Your task to perform on an android device: How much does a 2 bedroom apartment rent for in Washington DC? Image 0: 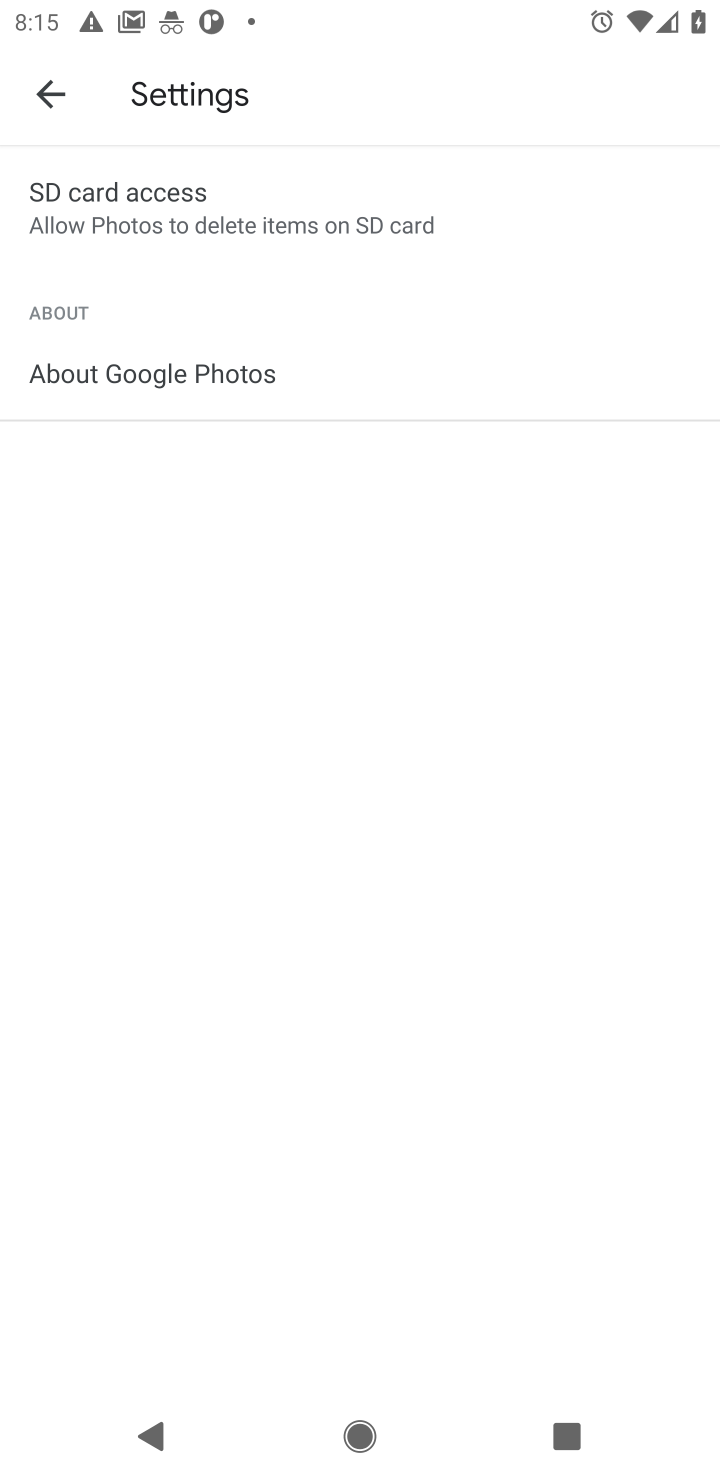
Step 0: press home button
Your task to perform on an android device: How much does a 2 bedroom apartment rent for in Washington DC? Image 1: 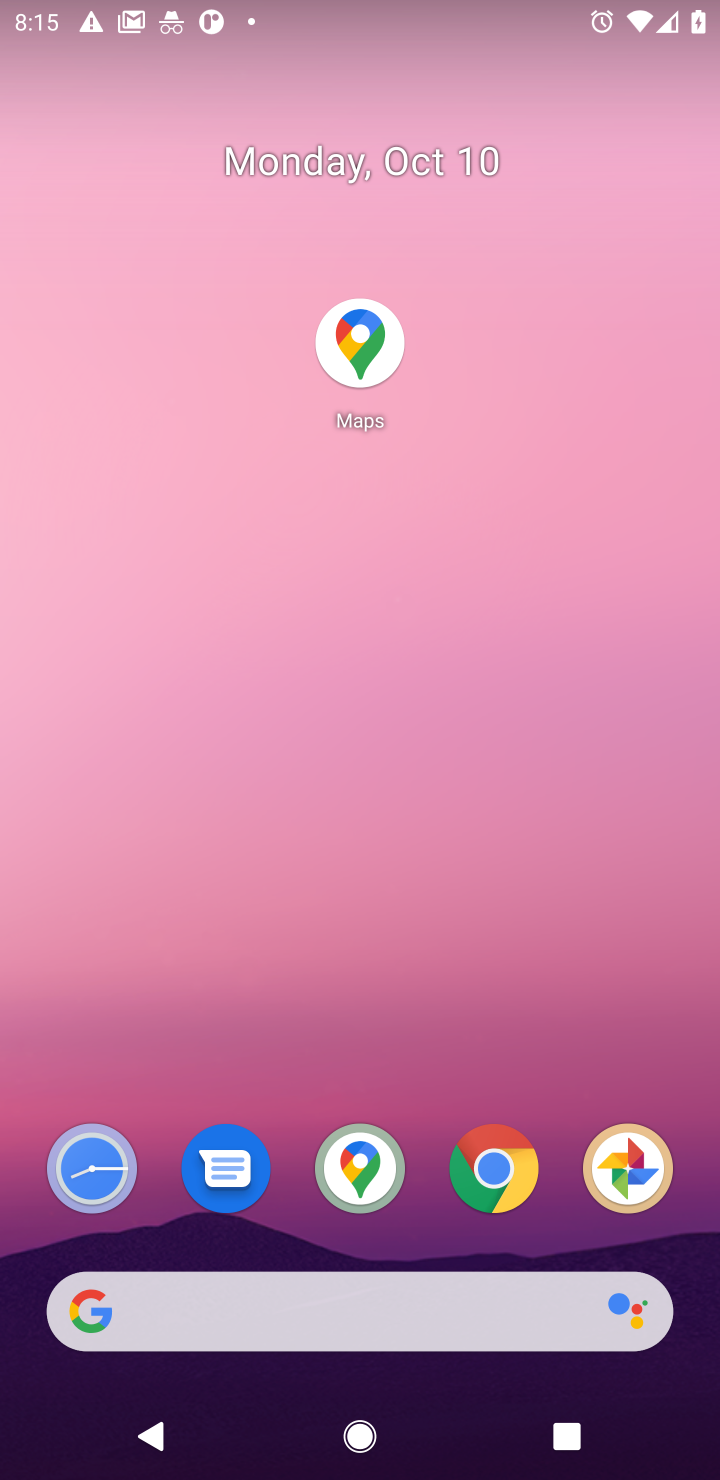
Step 1: click (502, 1173)
Your task to perform on an android device: How much does a 2 bedroom apartment rent for in Washington DC? Image 2: 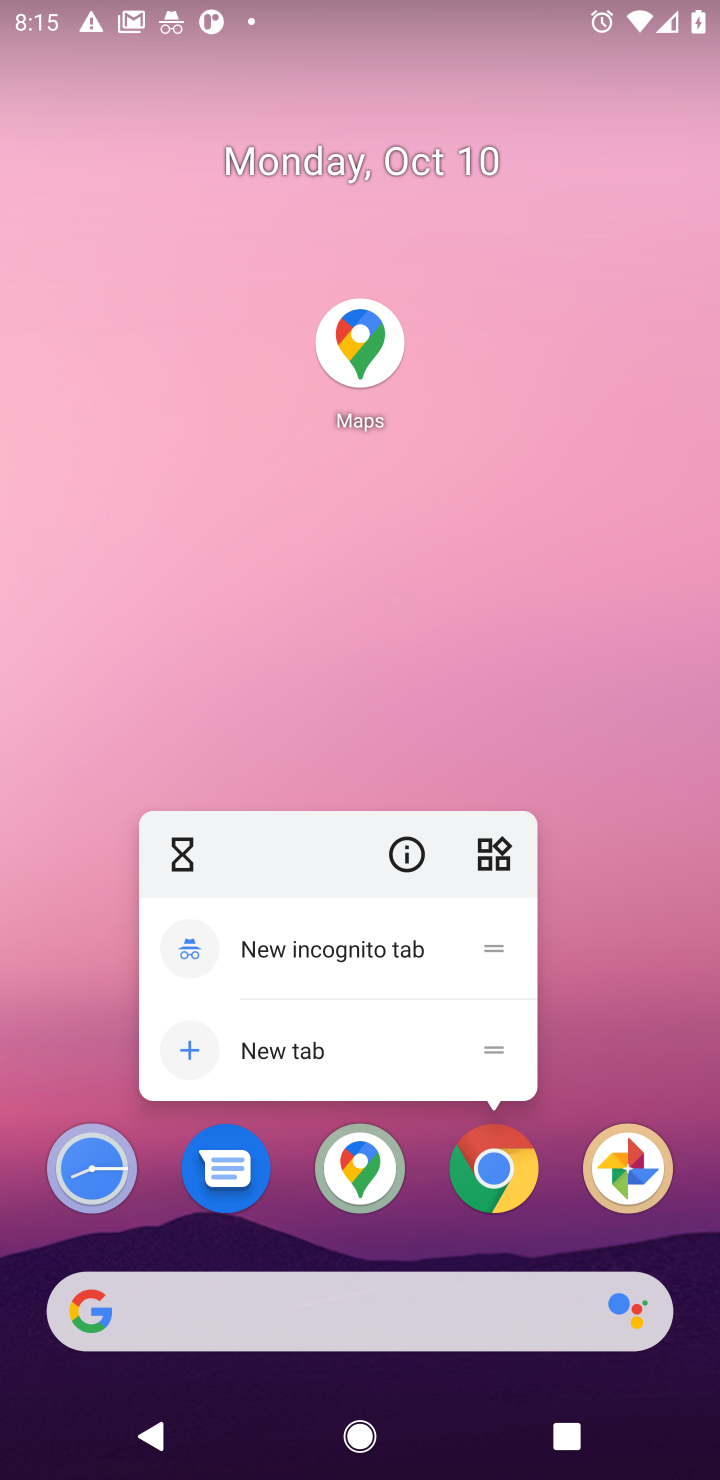
Step 2: click (502, 1173)
Your task to perform on an android device: How much does a 2 bedroom apartment rent for in Washington DC? Image 3: 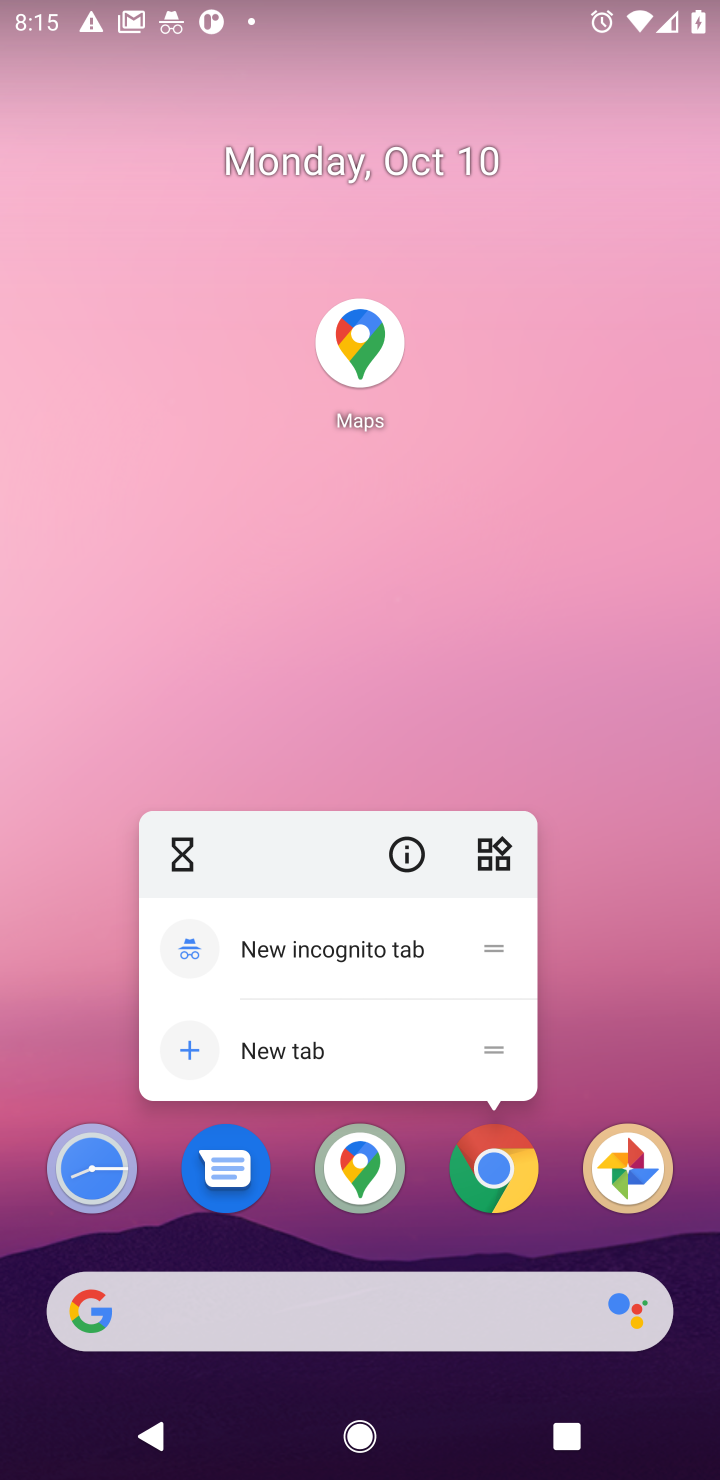
Step 3: click (502, 1173)
Your task to perform on an android device: How much does a 2 bedroom apartment rent for in Washington DC? Image 4: 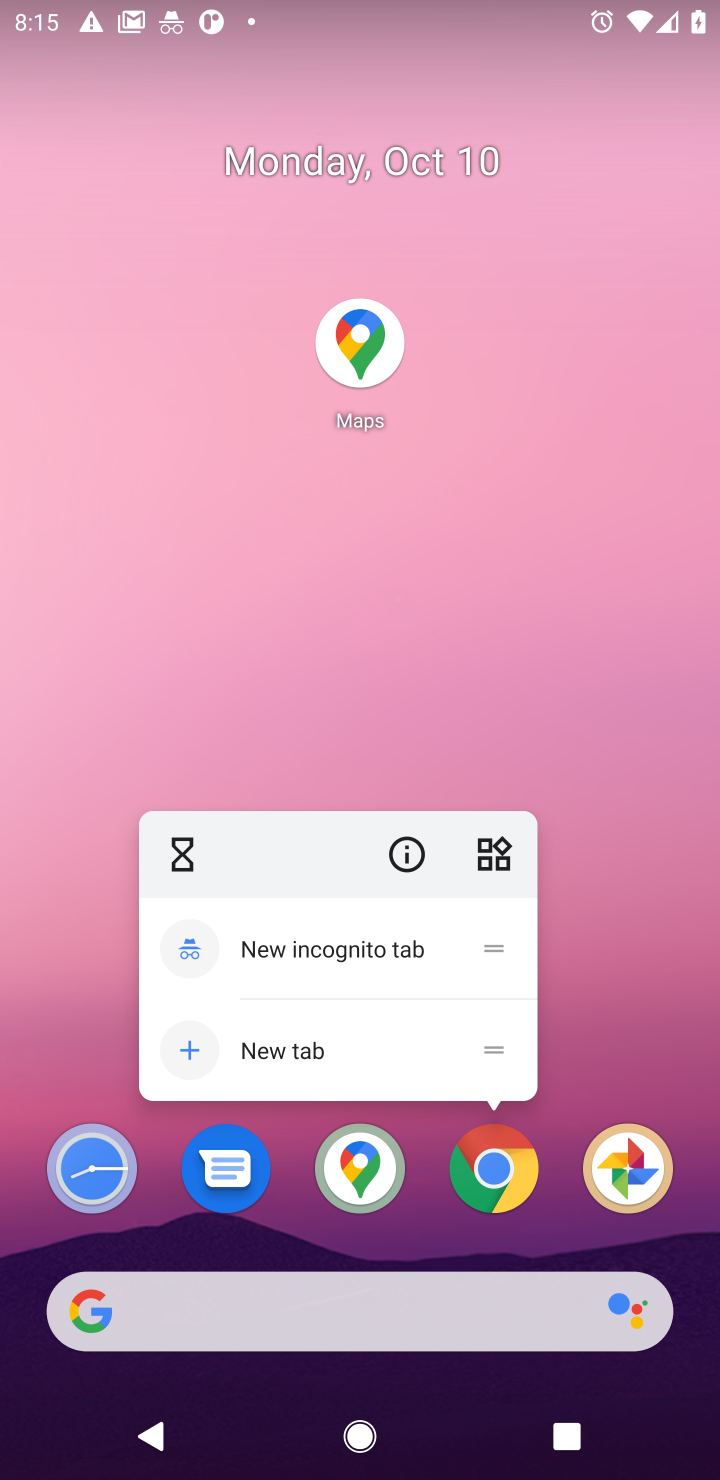
Step 4: click (502, 1173)
Your task to perform on an android device: How much does a 2 bedroom apartment rent for in Washington DC? Image 5: 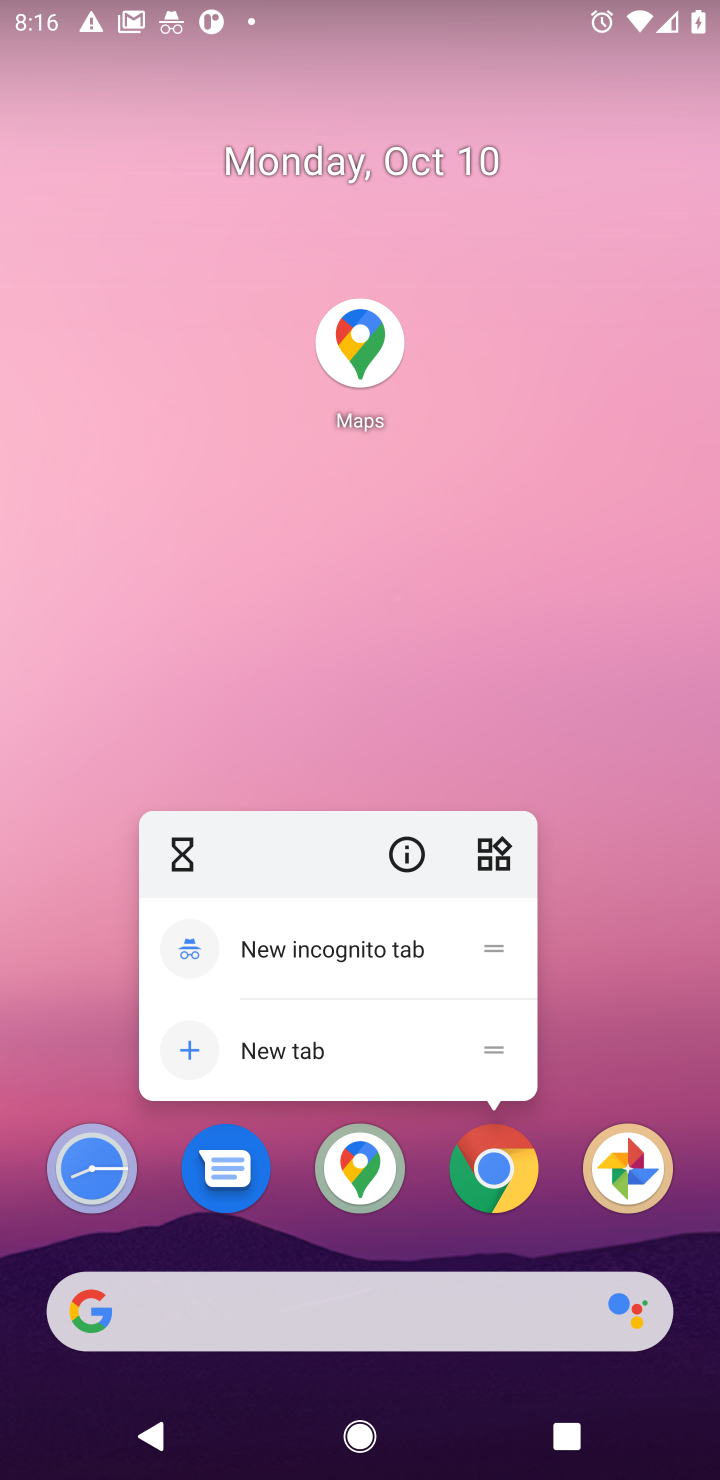
Step 5: click (502, 1173)
Your task to perform on an android device: How much does a 2 bedroom apartment rent for in Washington DC? Image 6: 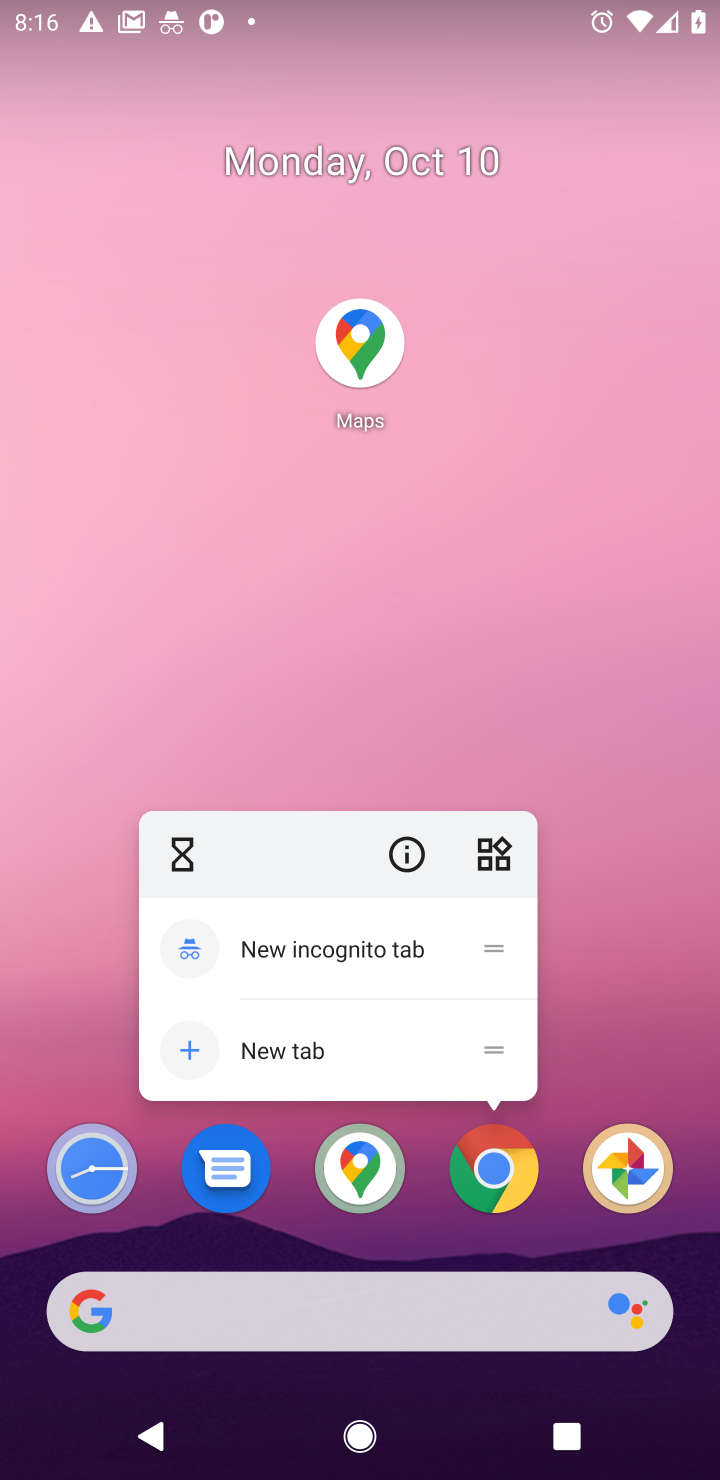
Step 6: click (485, 1188)
Your task to perform on an android device: How much does a 2 bedroom apartment rent for in Washington DC? Image 7: 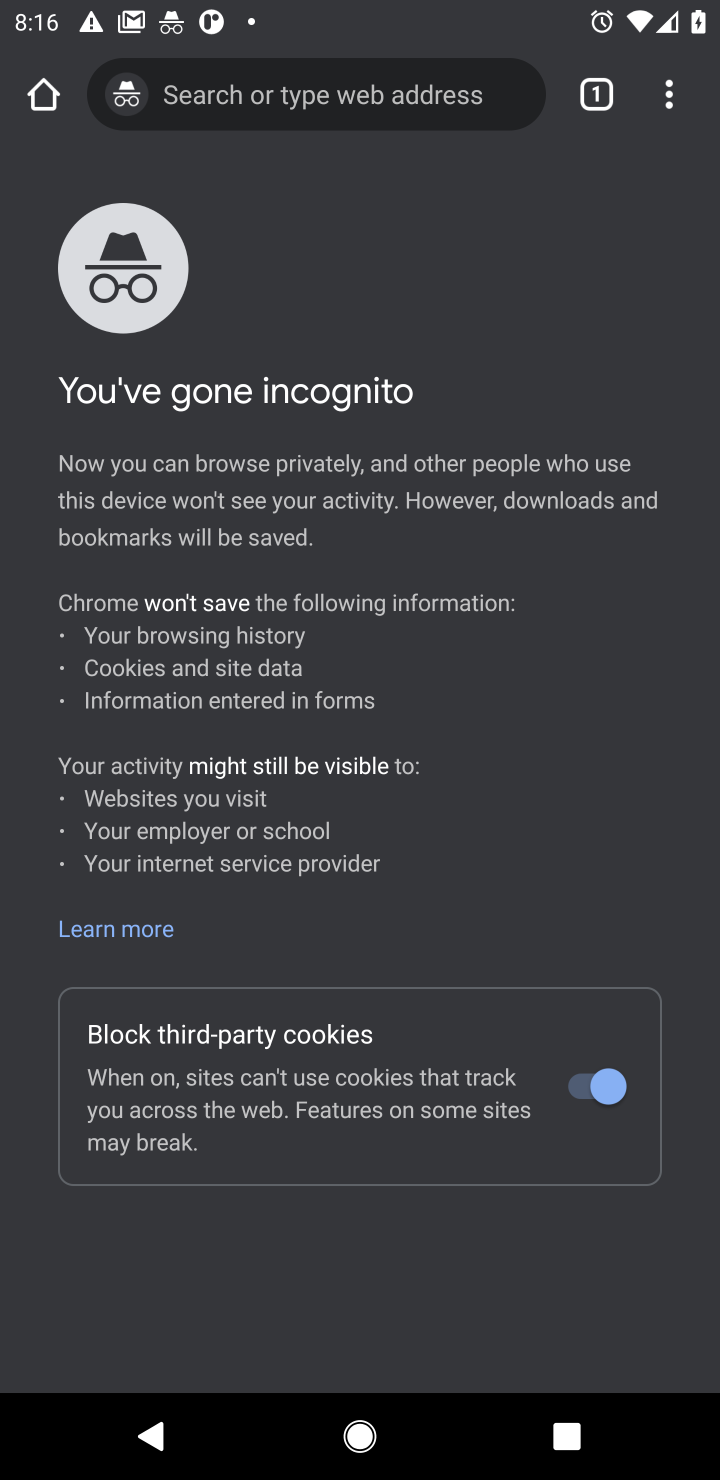
Step 7: click (237, 111)
Your task to perform on an android device: How much does a 2 bedroom apartment rent for in Washington DC? Image 8: 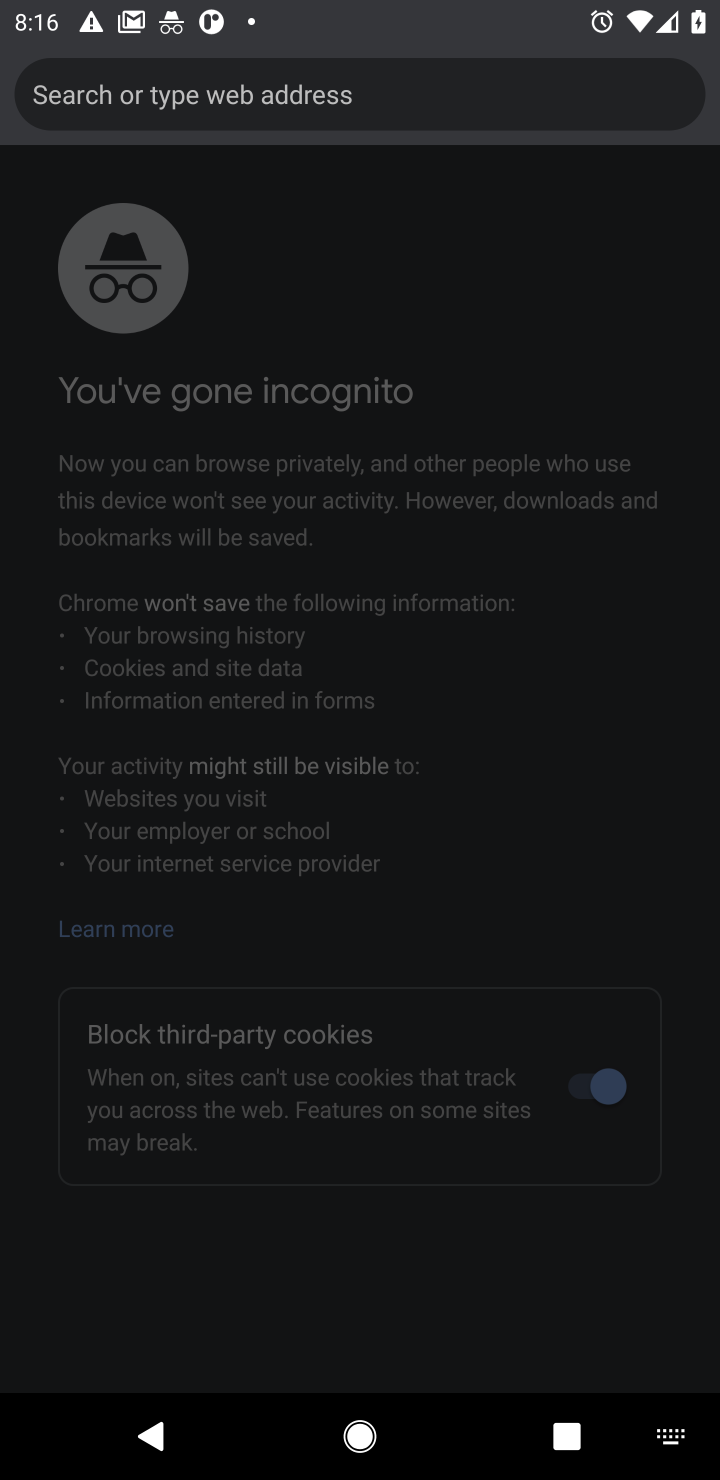
Step 8: type "rent for 2 bedroom apartment in washington dc"
Your task to perform on an android device: How much does a 2 bedroom apartment rent for in Washington DC? Image 9: 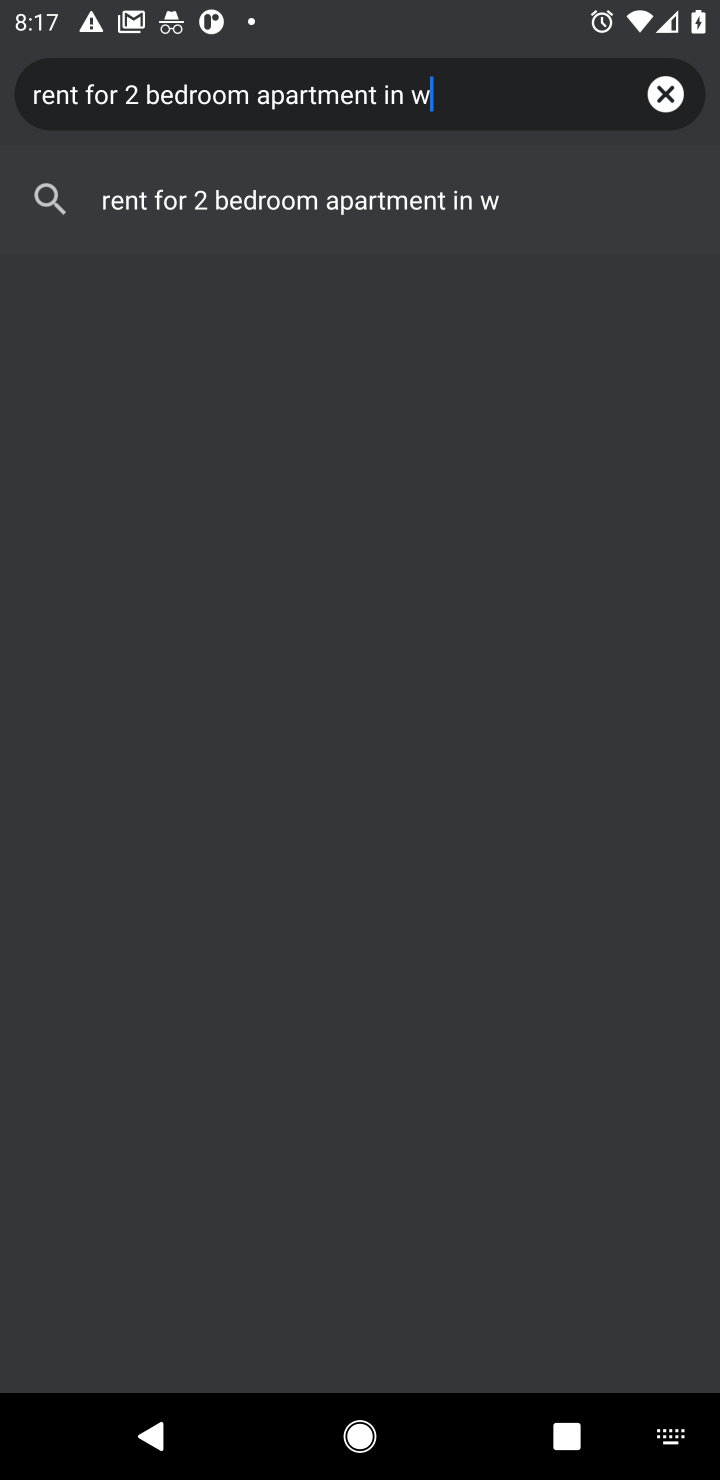
Step 9: type "ashington dc"
Your task to perform on an android device: How much does a 2 bedroom apartment rent for in Washington DC? Image 10: 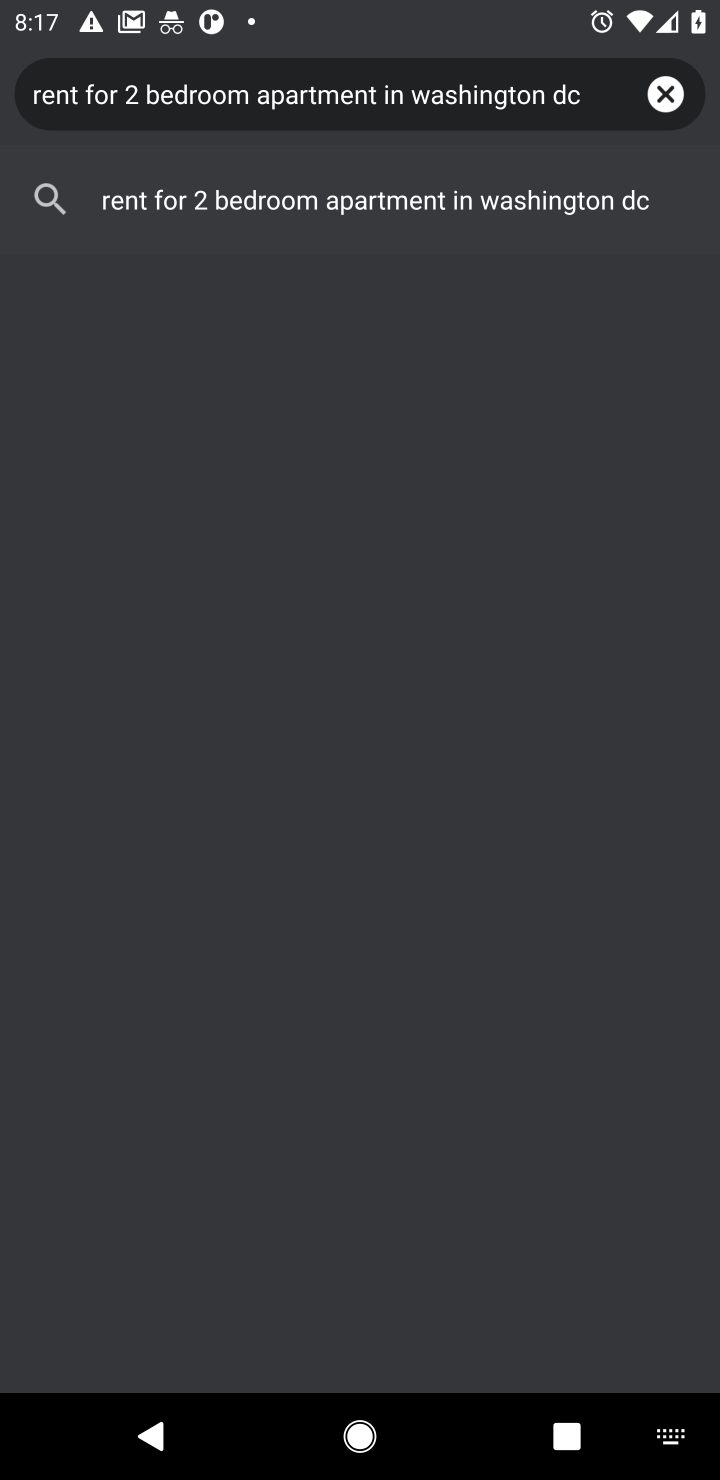
Step 10: click (430, 205)
Your task to perform on an android device: How much does a 2 bedroom apartment rent for in Washington DC? Image 11: 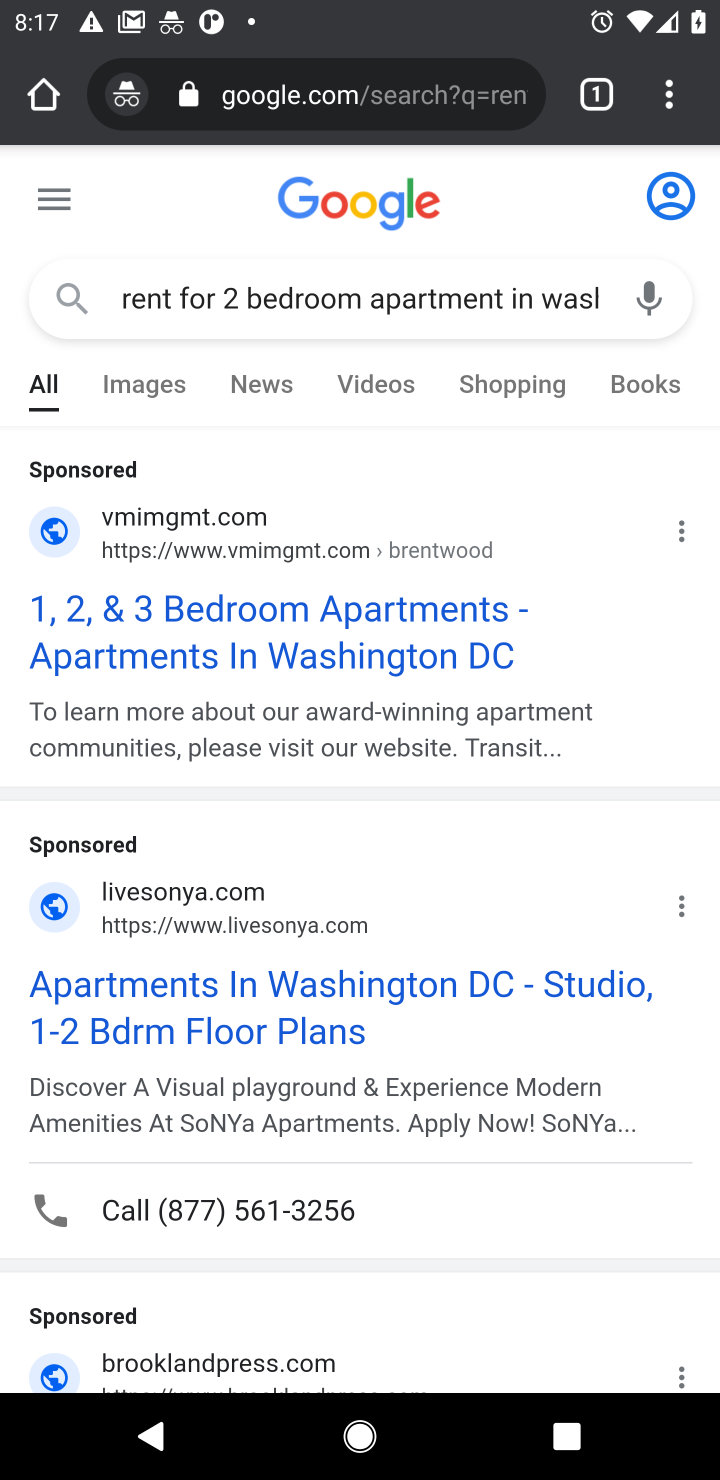
Step 11: click (159, 636)
Your task to perform on an android device: How much does a 2 bedroom apartment rent for in Washington DC? Image 12: 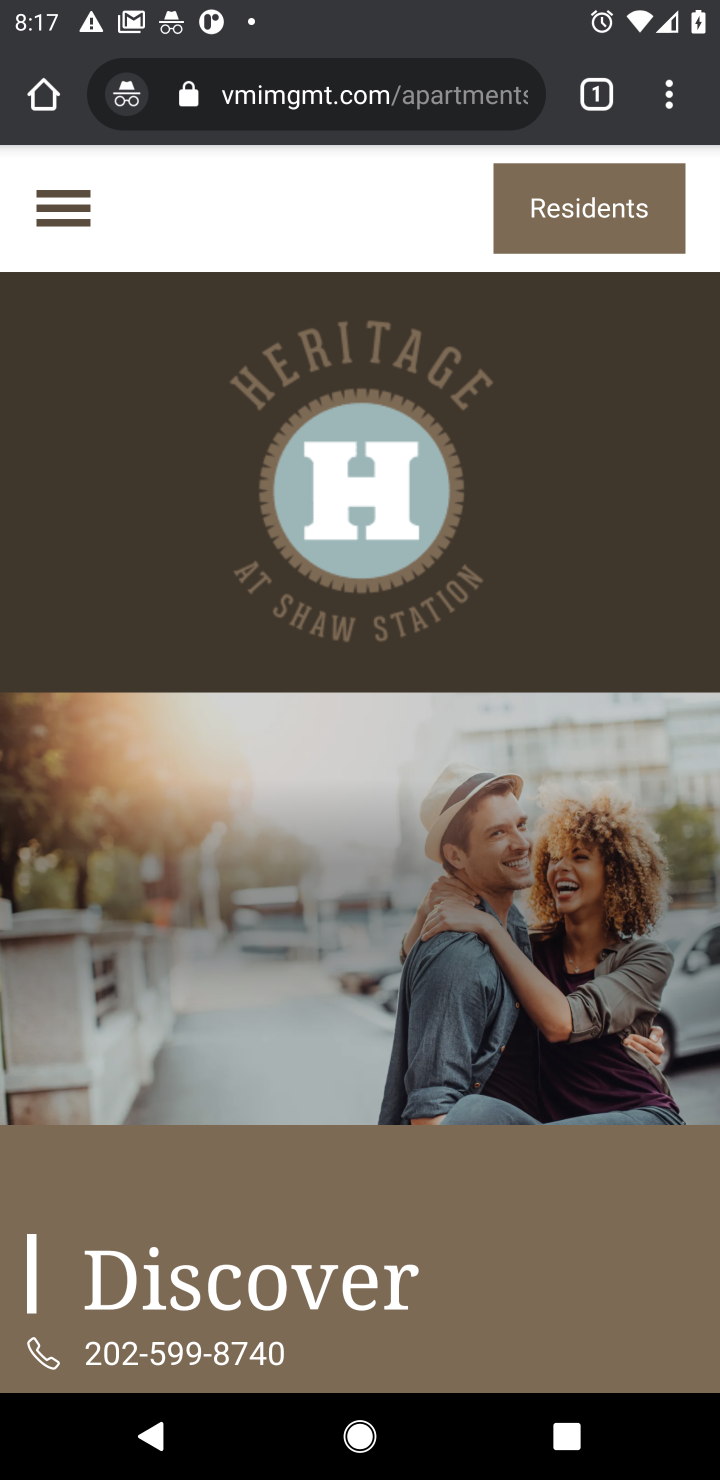
Step 12: drag from (574, 1165) to (573, 451)
Your task to perform on an android device: How much does a 2 bedroom apartment rent for in Washington DC? Image 13: 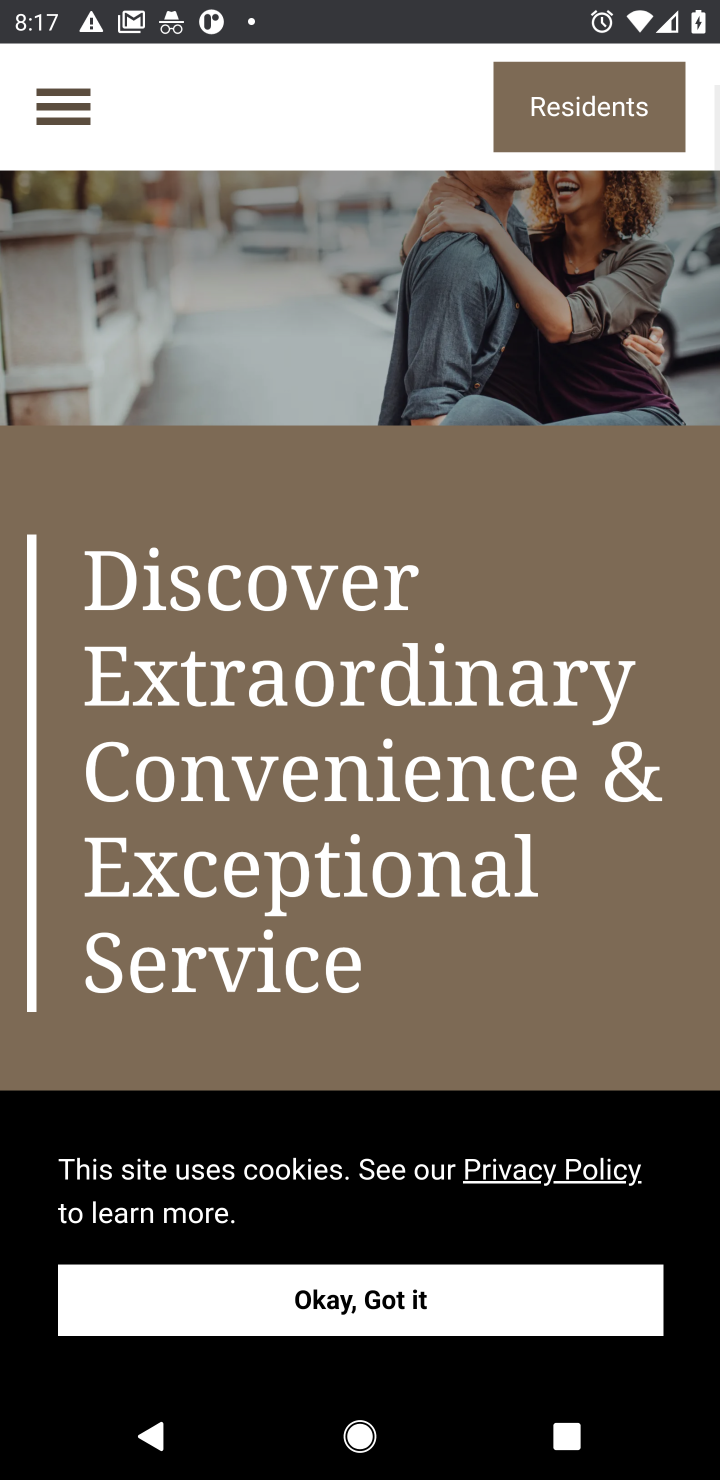
Step 13: drag from (502, 553) to (452, 194)
Your task to perform on an android device: How much does a 2 bedroom apartment rent for in Washington DC? Image 14: 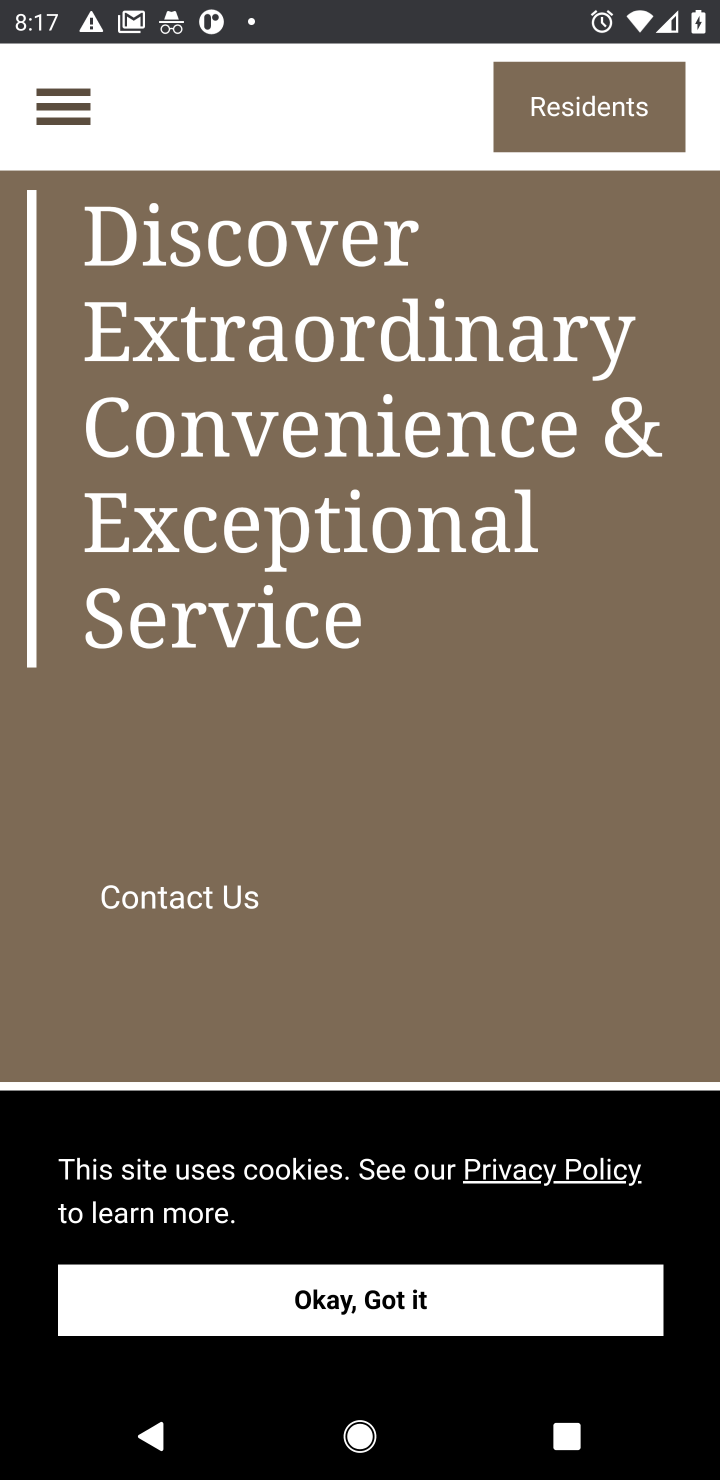
Step 14: drag from (507, 911) to (484, 150)
Your task to perform on an android device: How much does a 2 bedroom apartment rent for in Washington DC? Image 15: 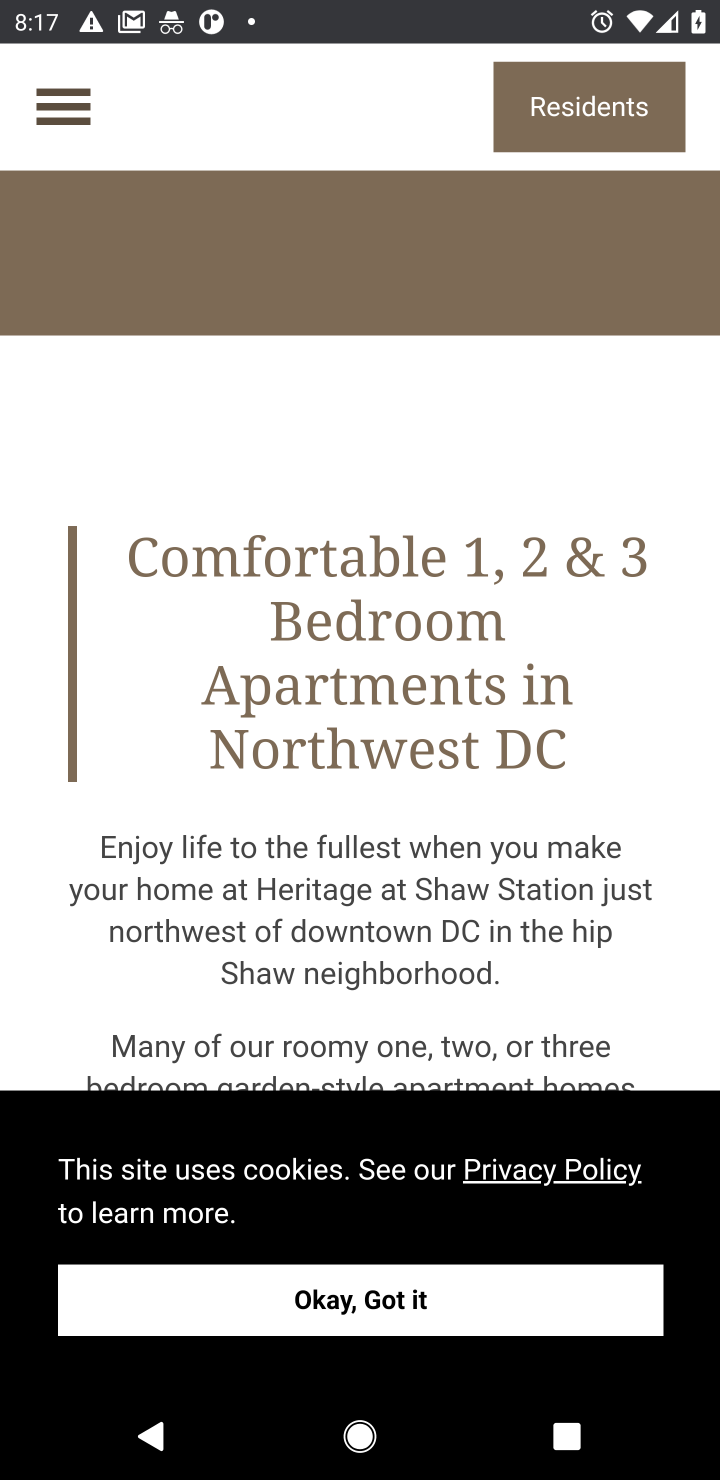
Step 15: drag from (425, 890) to (397, 279)
Your task to perform on an android device: How much does a 2 bedroom apartment rent for in Washington DC? Image 16: 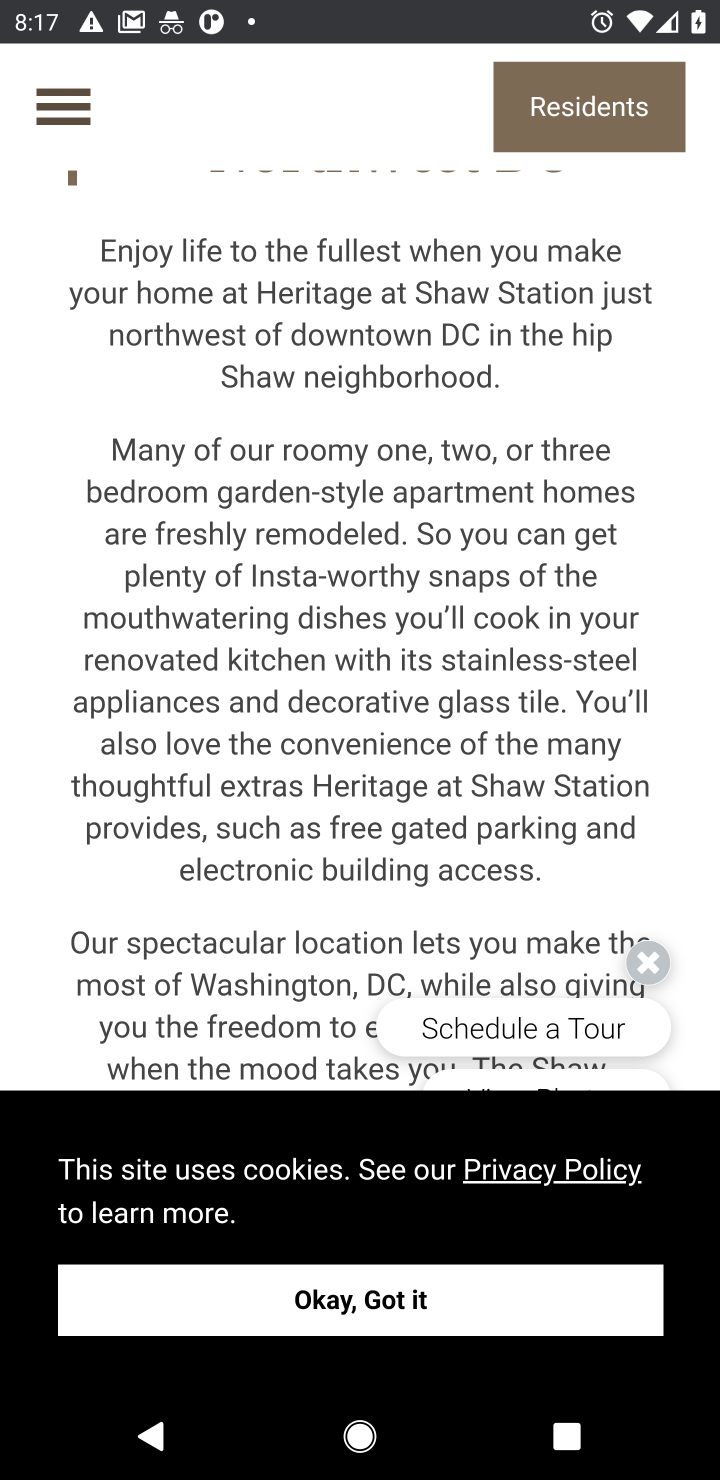
Step 16: drag from (372, 836) to (359, 197)
Your task to perform on an android device: How much does a 2 bedroom apartment rent for in Washington DC? Image 17: 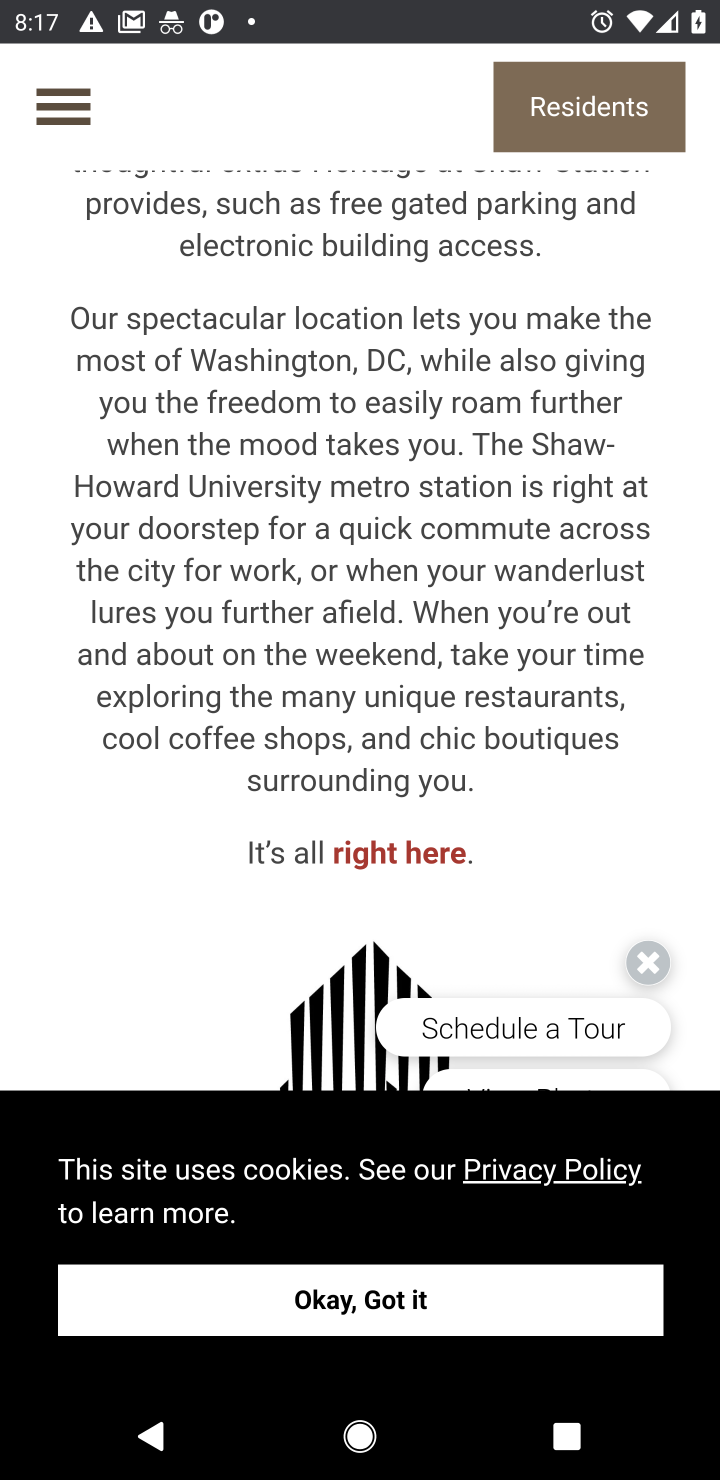
Step 17: drag from (264, 743) to (231, 287)
Your task to perform on an android device: How much does a 2 bedroom apartment rent for in Washington DC? Image 18: 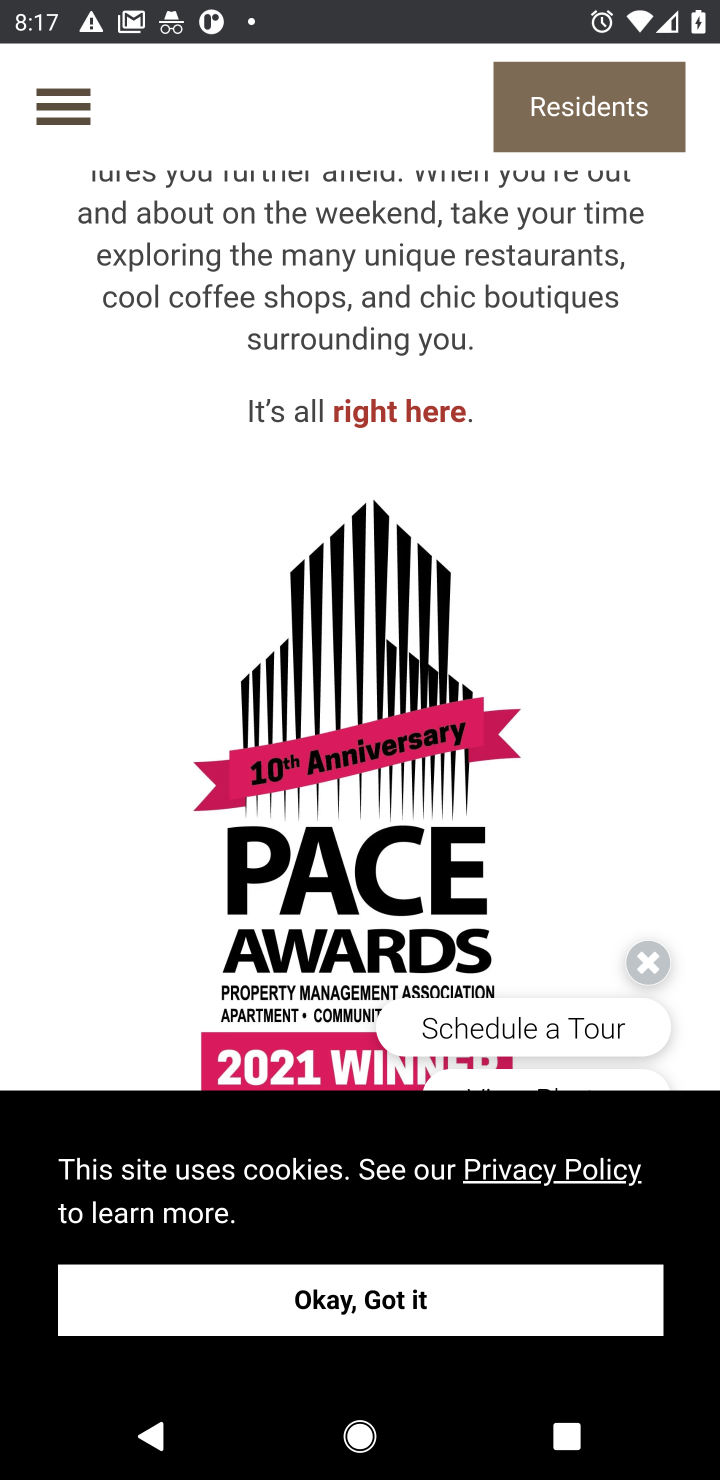
Step 18: press back button
Your task to perform on an android device: How much does a 2 bedroom apartment rent for in Washington DC? Image 19: 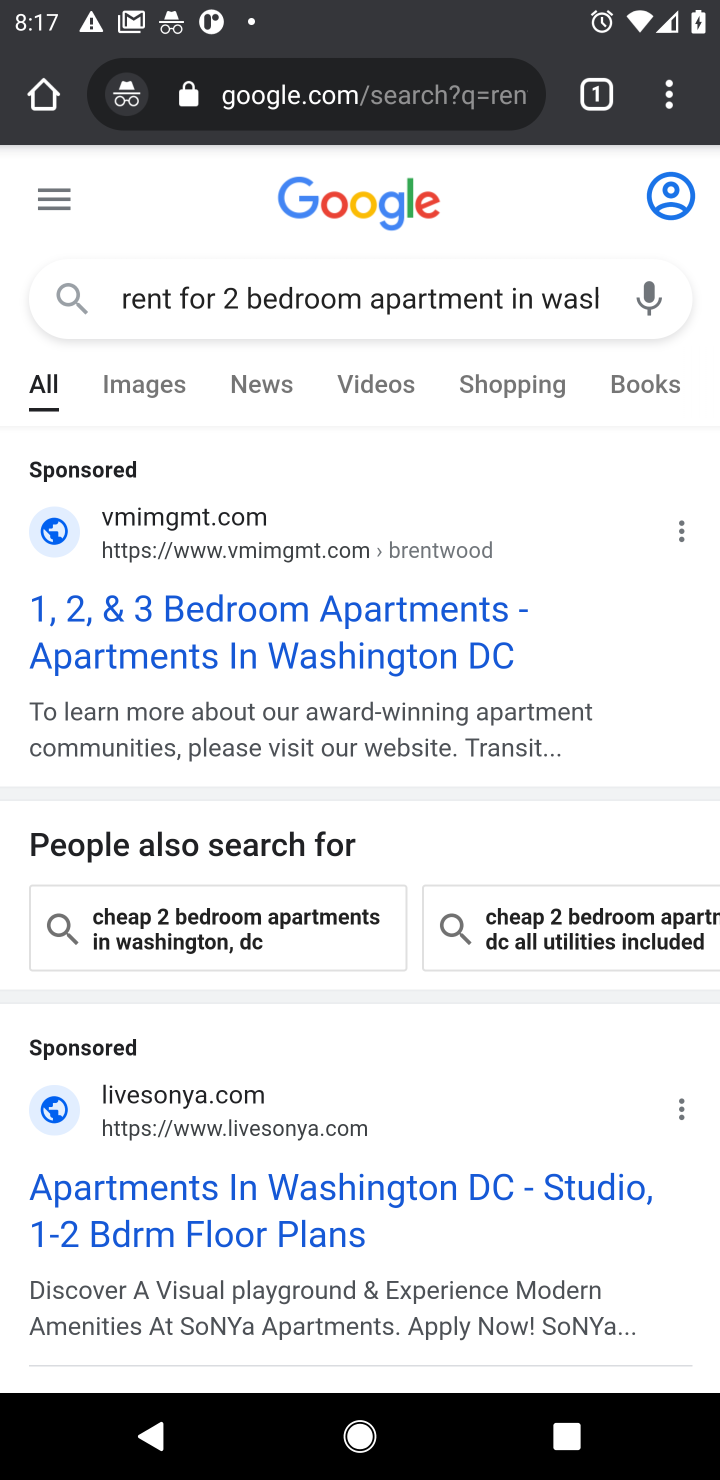
Step 19: drag from (320, 752) to (281, 426)
Your task to perform on an android device: How much does a 2 bedroom apartment rent for in Washington DC? Image 20: 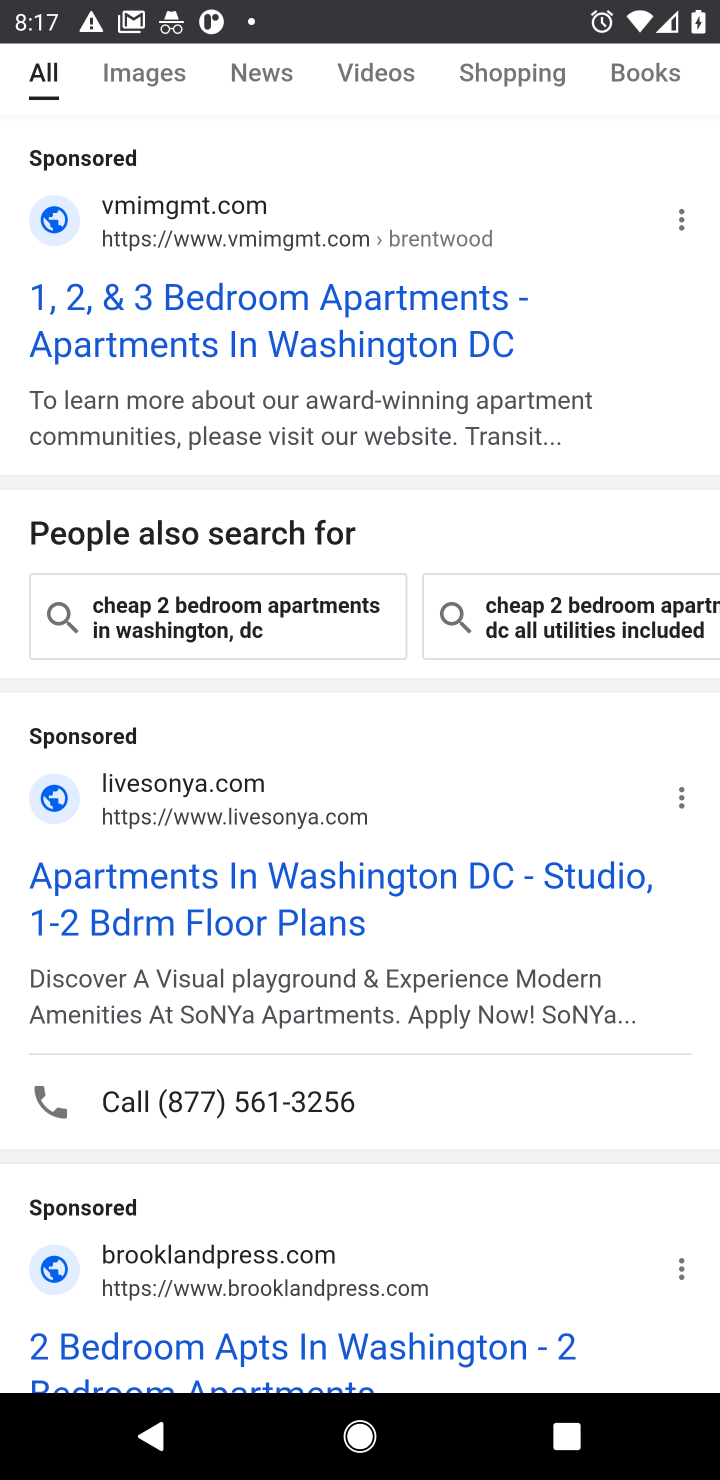
Step 20: drag from (279, 1139) to (285, 627)
Your task to perform on an android device: How much does a 2 bedroom apartment rent for in Washington DC? Image 21: 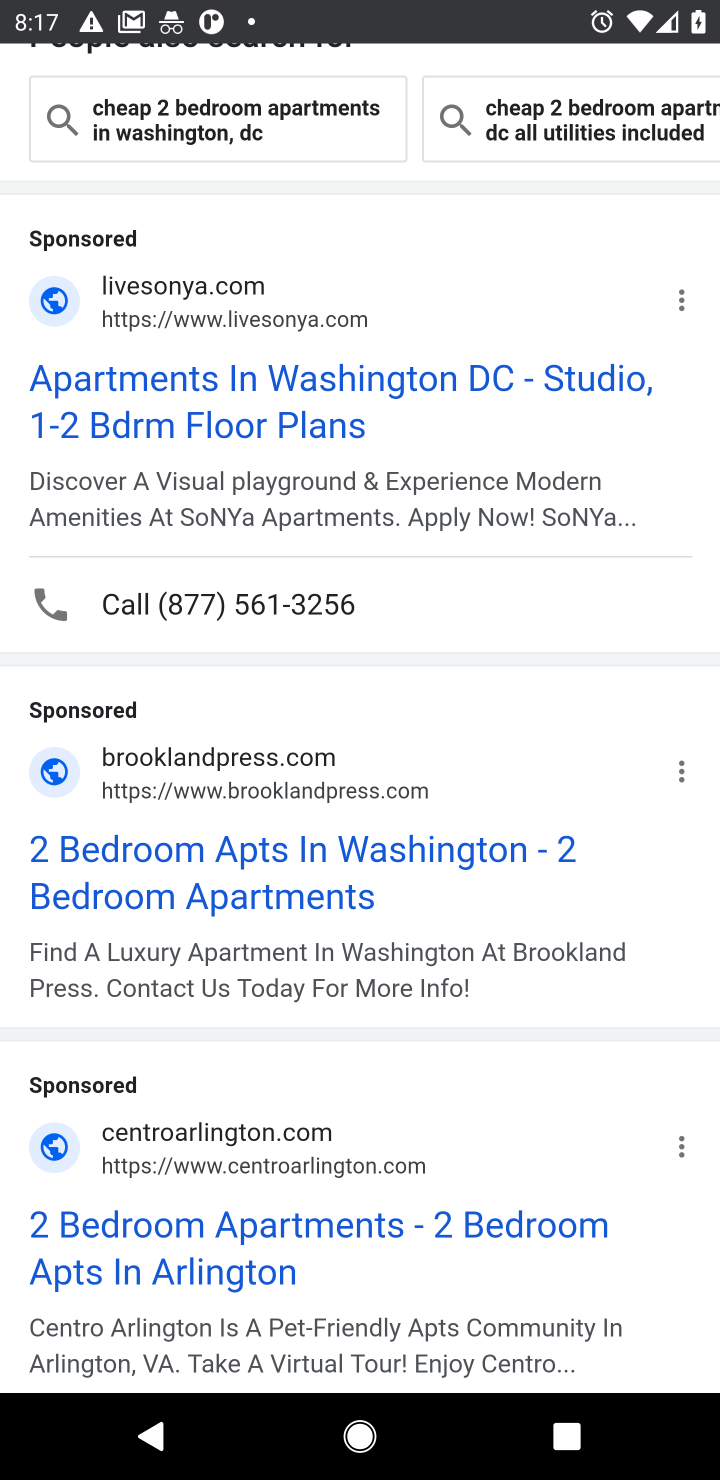
Step 21: click (175, 878)
Your task to perform on an android device: How much does a 2 bedroom apartment rent for in Washington DC? Image 22: 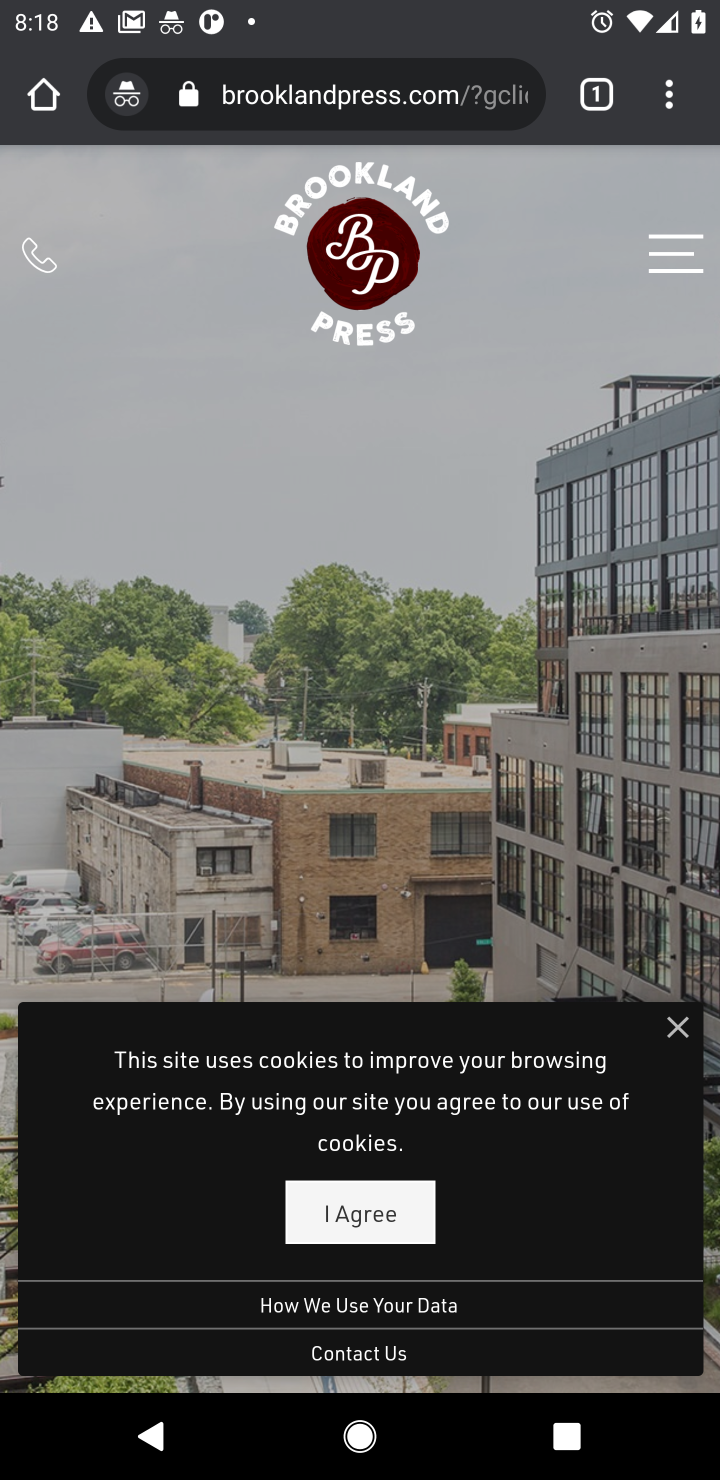
Step 22: drag from (399, 880) to (373, 336)
Your task to perform on an android device: How much does a 2 bedroom apartment rent for in Washington DC? Image 23: 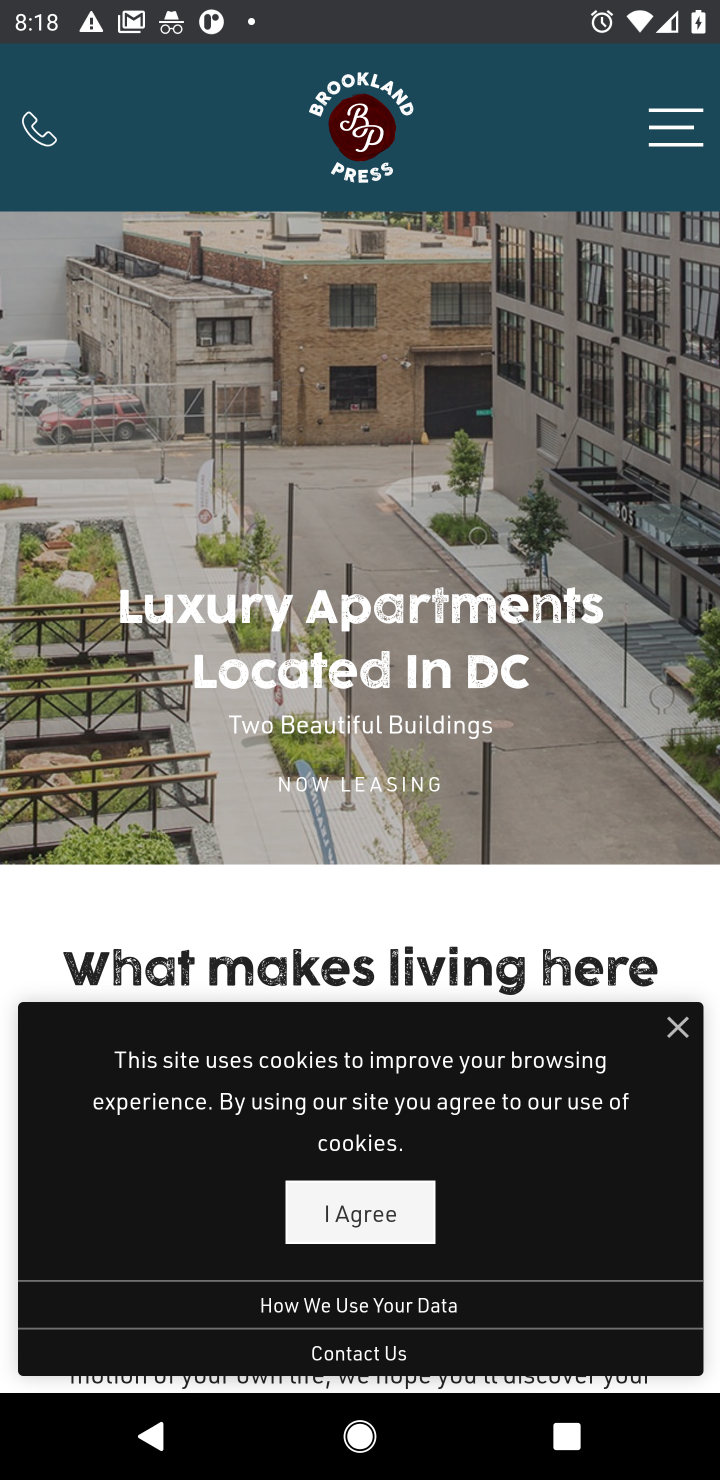
Step 23: drag from (404, 627) to (374, 232)
Your task to perform on an android device: How much does a 2 bedroom apartment rent for in Washington DC? Image 24: 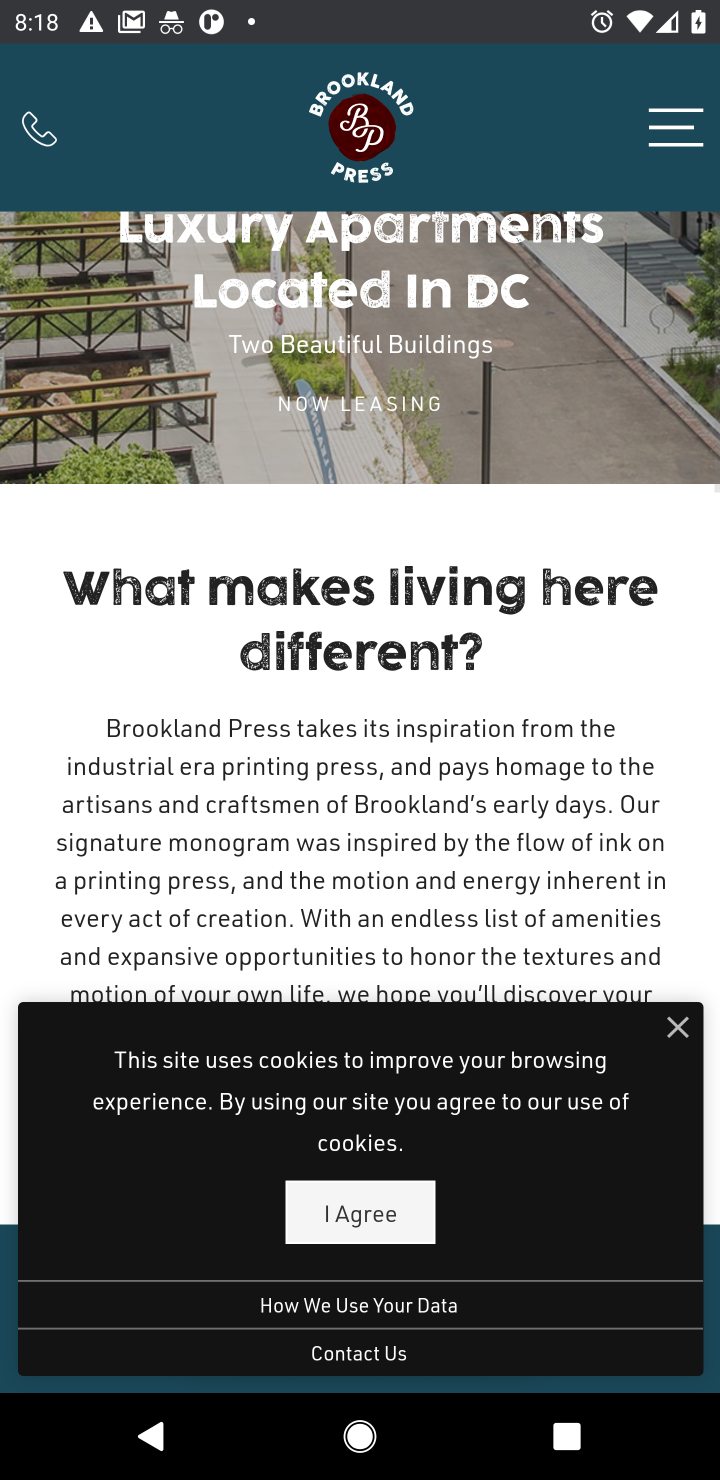
Step 24: drag from (413, 831) to (405, 105)
Your task to perform on an android device: How much does a 2 bedroom apartment rent for in Washington DC? Image 25: 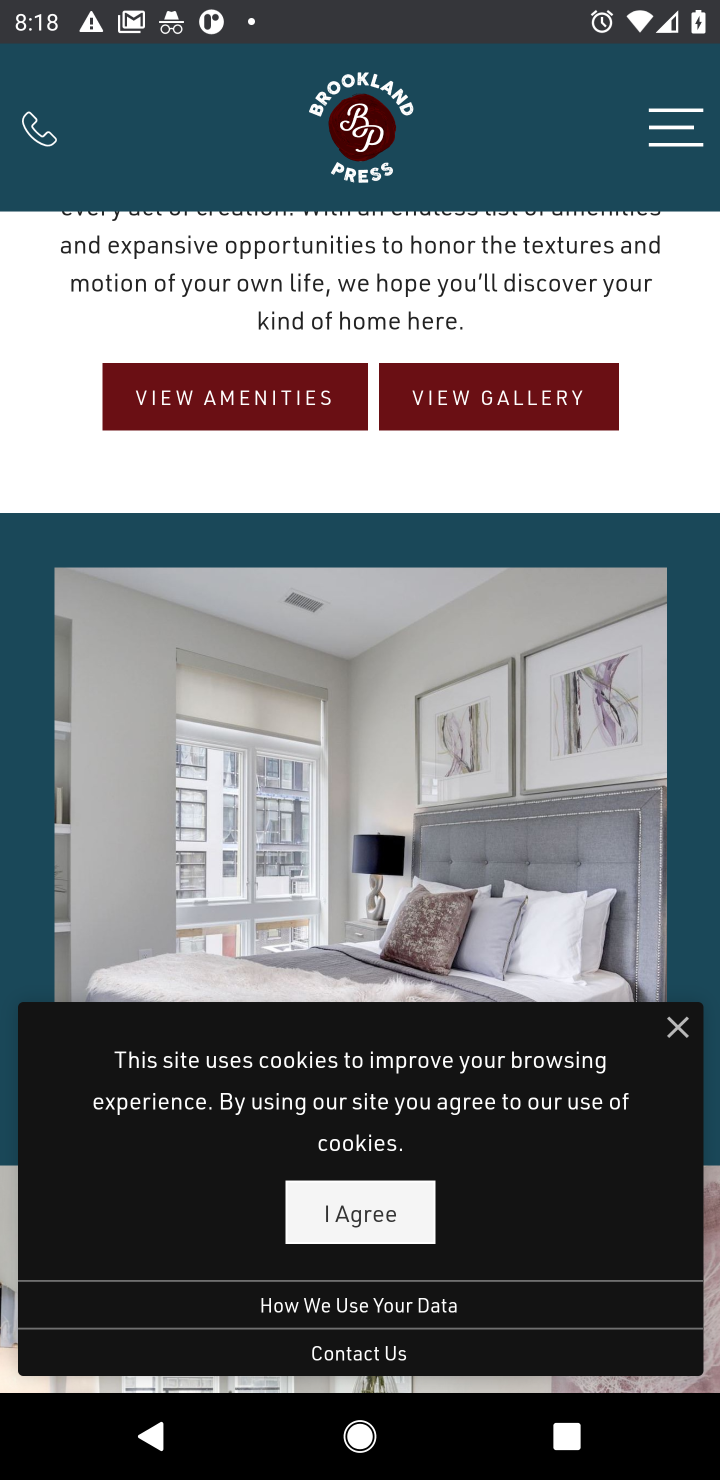
Step 25: press back button
Your task to perform on an android device: How much does a 2 bedroom apartment rent for in Washington DC? Image 26: 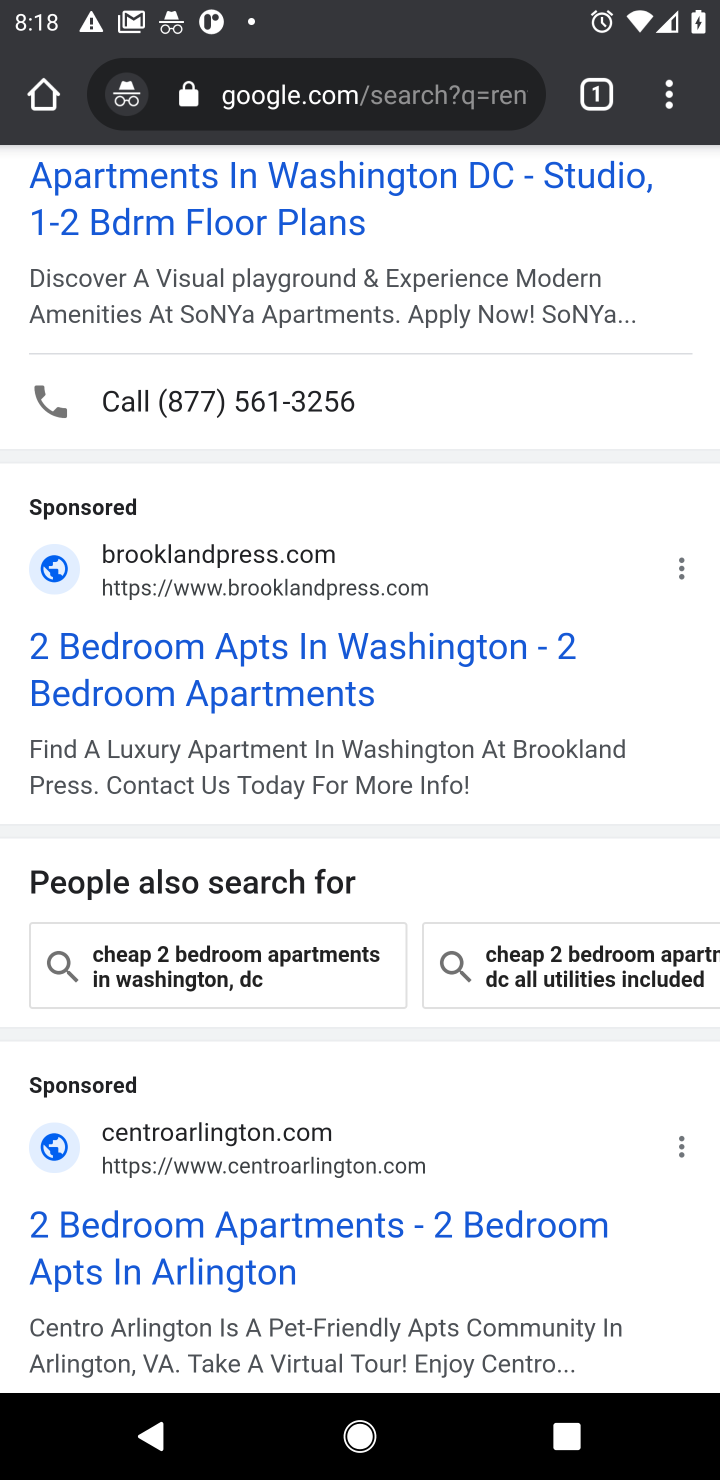
Step 26: click (172, 969)
Your task to perform on an android device: How much does a 2 bedroom apartment rent for in Washington DC? Image 27: 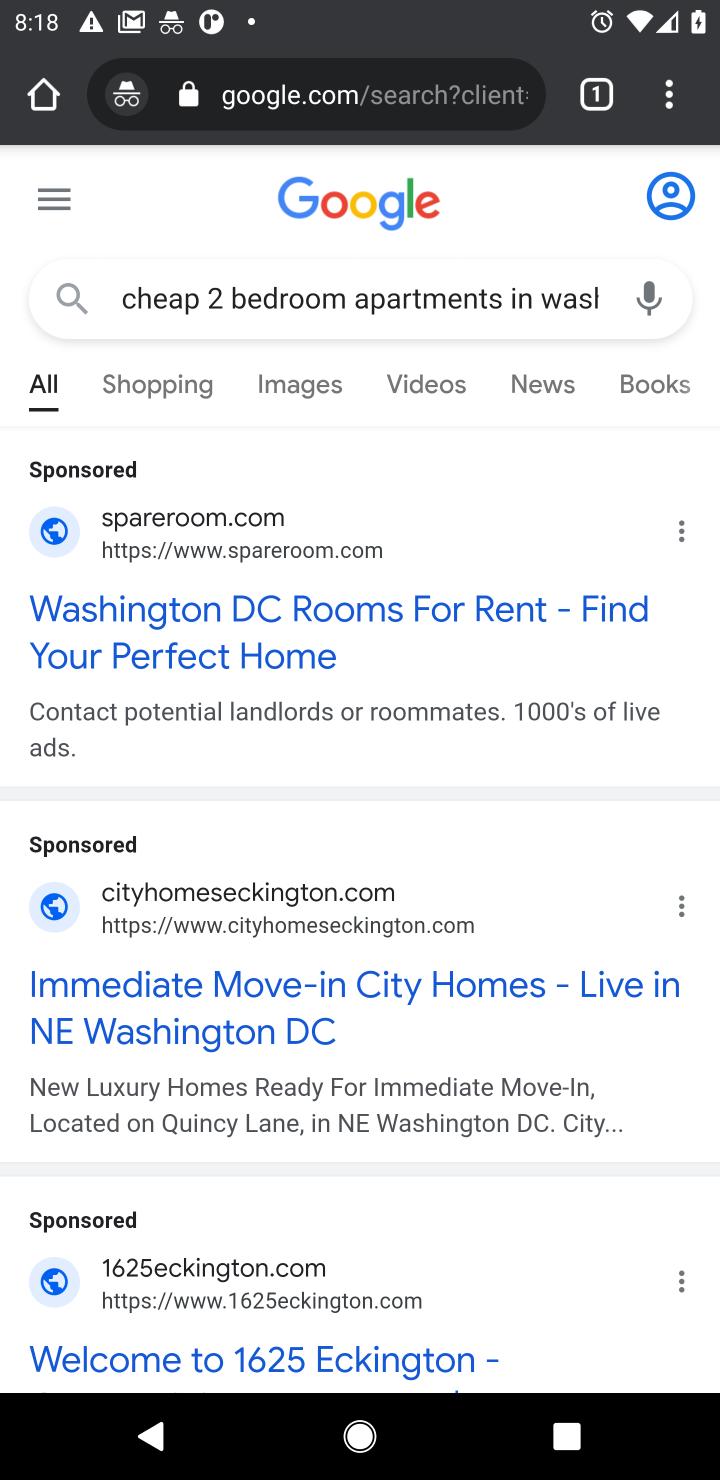
Step 27: click (200, 620)
Your task to perform on an android device: How much does a 2 bedroom apartment rent for in Washington DC? Image 28: 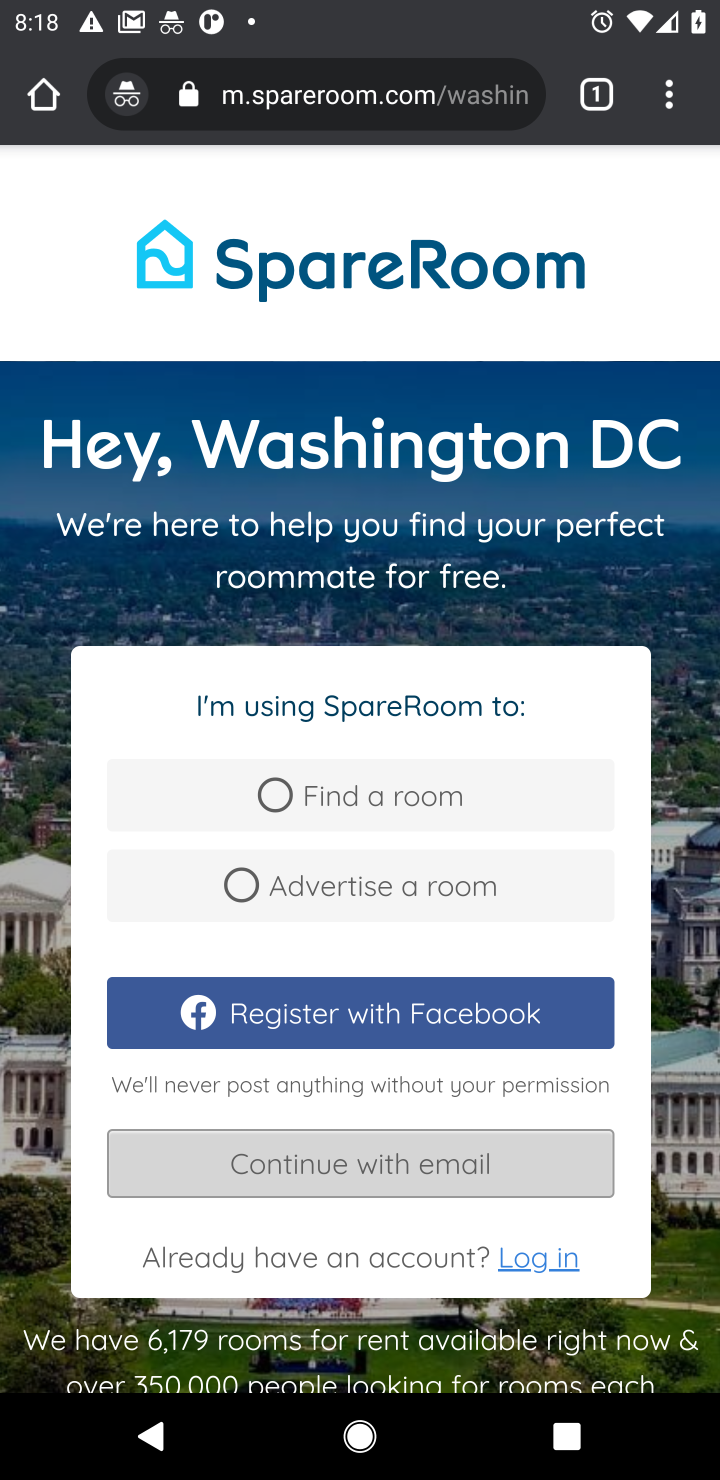
Step 28: drag from (434, 855) to (449, 489)
Your task to perform on an android device: How much does a 2 bedroom apartment rent for in Washington DC? Image 29: 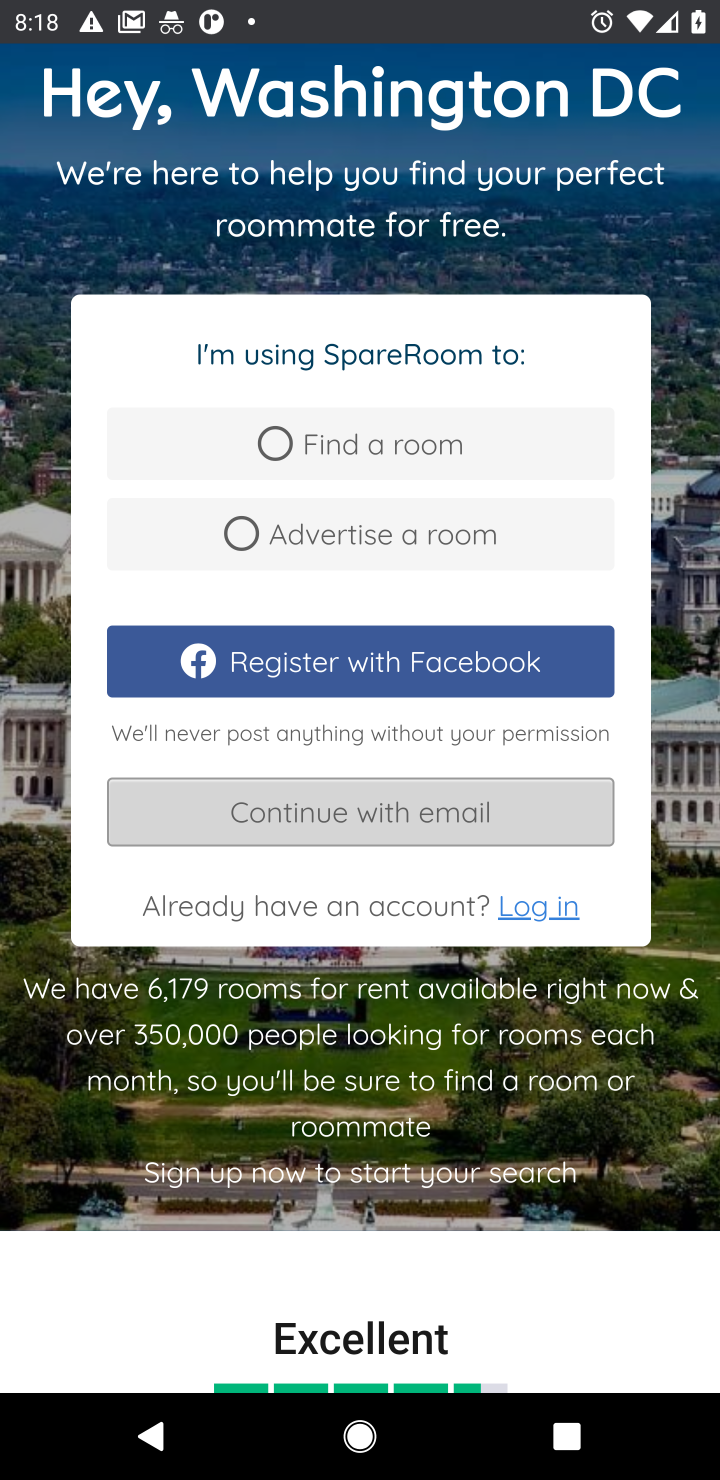
Step 29: drag from (319, 940) to (356, 288)
Your task to perform on an android device: How much does a 2 bedroom apartment rent for in Washington DC? Image 30: 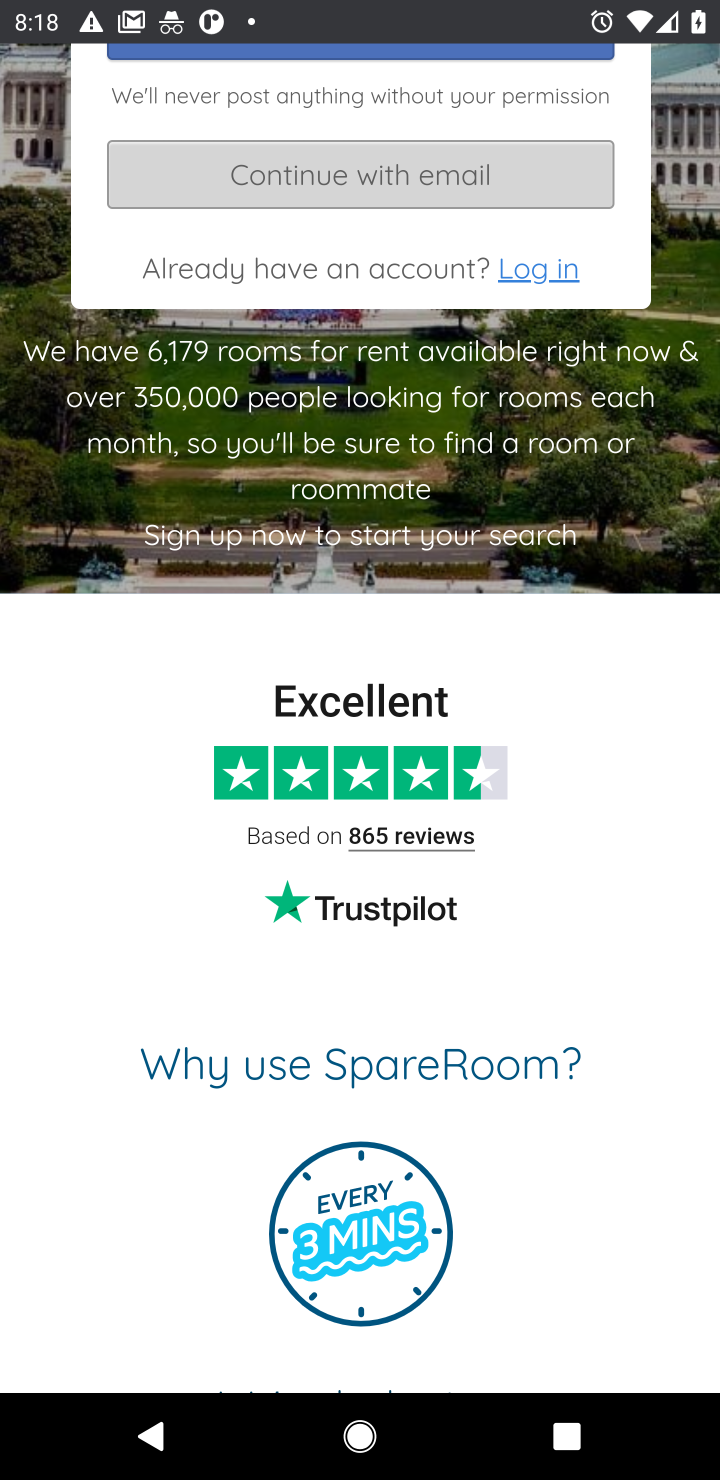
Step 30: drag from (408, 927) to (414, 72)
Your task to perform on an android device: How much does a 2 bedroom apartment rent for in Washington DC? Image 31: 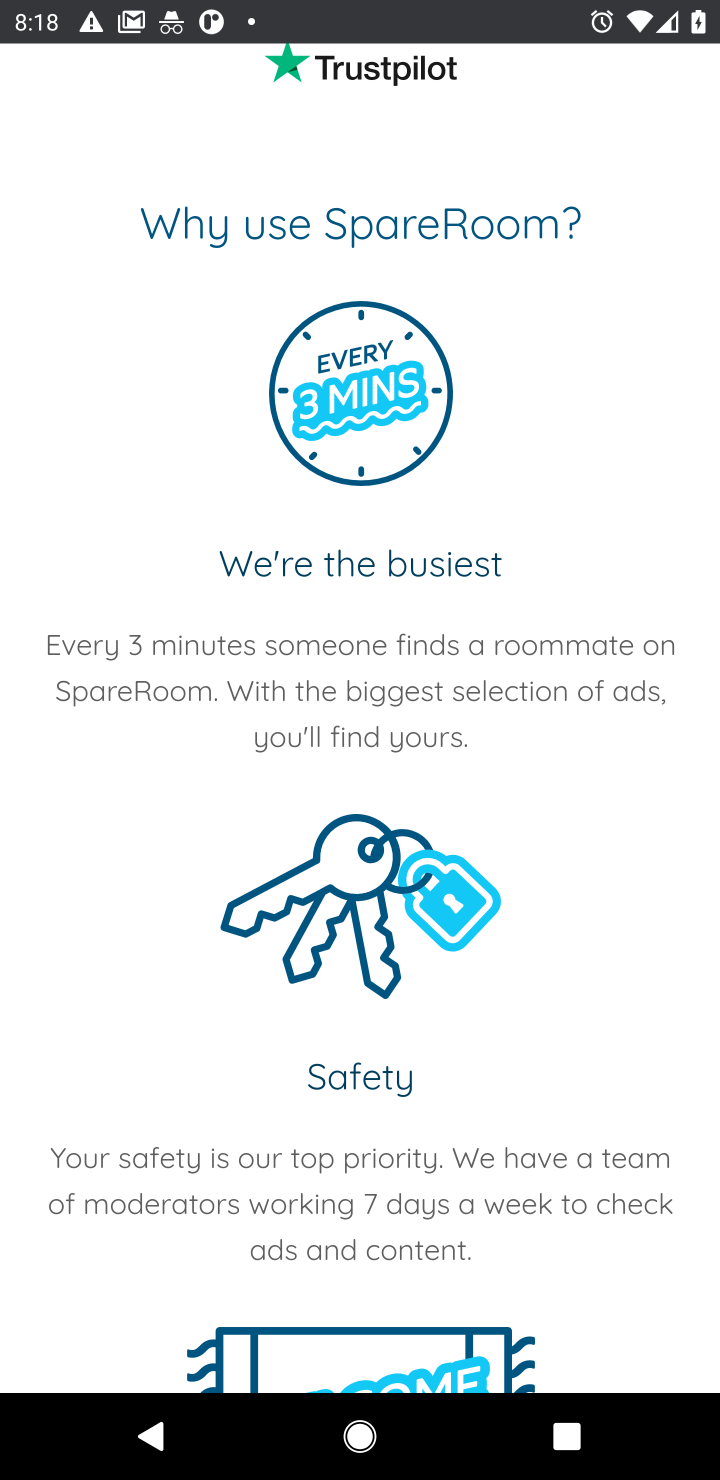
Step 31: drag from (476, 1015) to (381, 21)
Your task to perform on an android device: How much does a 2 bedroom apartment rent for in Washington DC? Image 32: 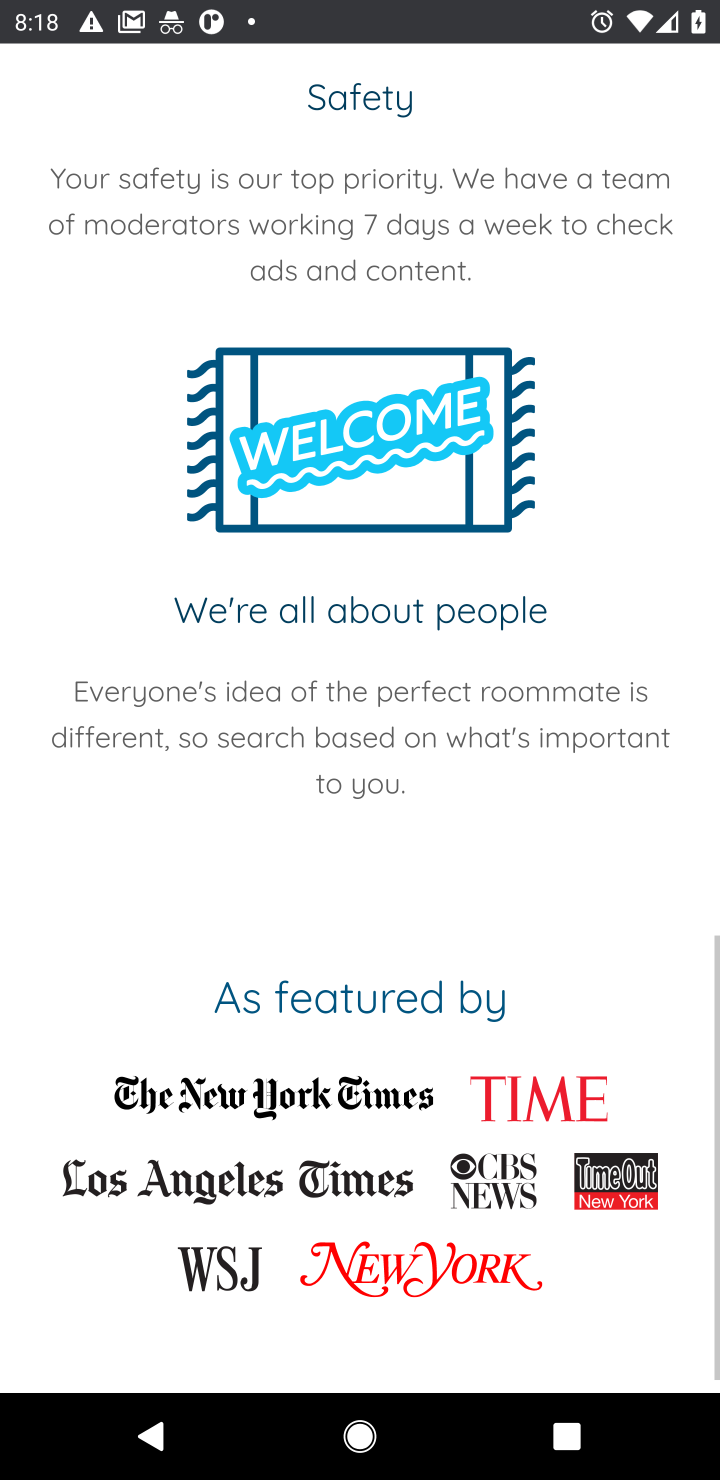
Step 32: drag from (550, 896) to (478, 191)
Your task to perform on an android device: How much does a 2 bedroom apartment rent for in Washington DC? Image 33: 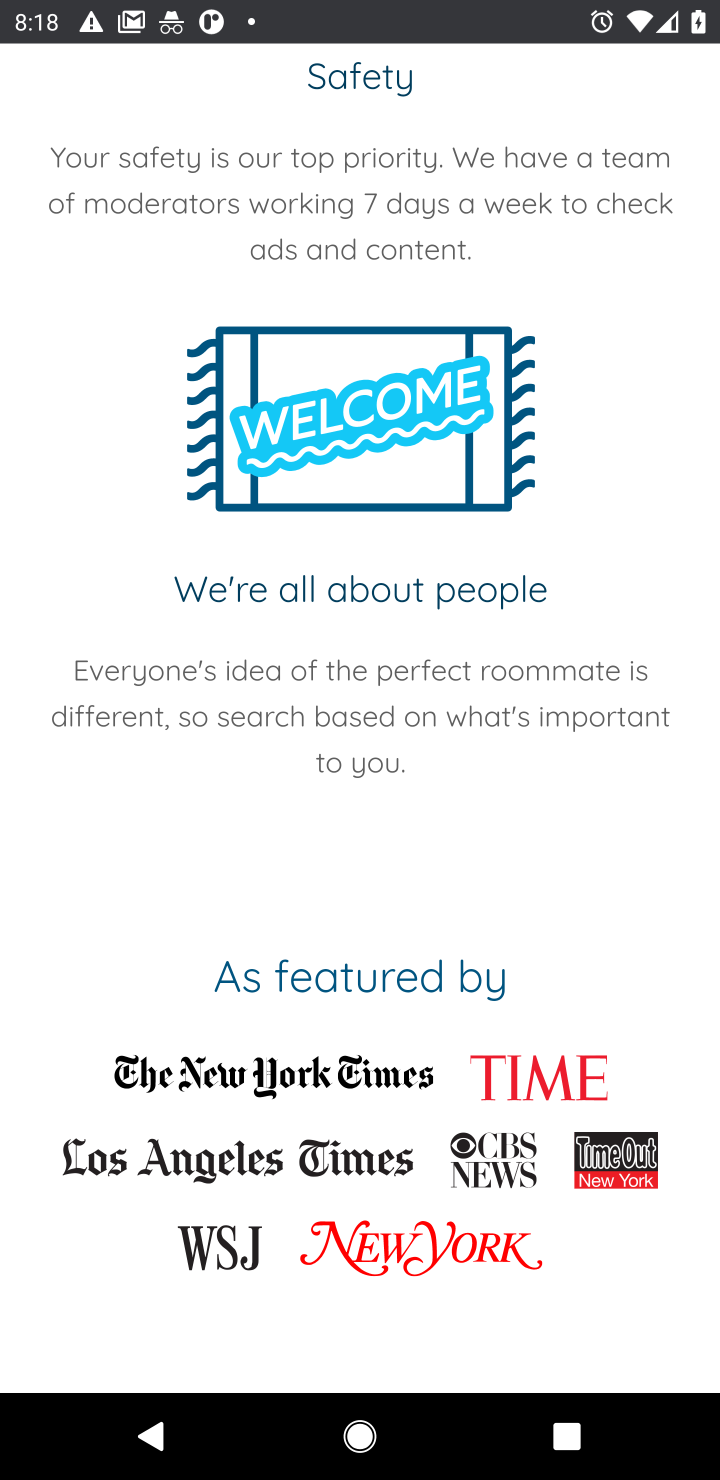
Step 33: drag from (499, 1062) to (604, 241)
Your task to perform on an android device: How much does a 2 bedroom apartment rent for in Washington DC? Image 34: 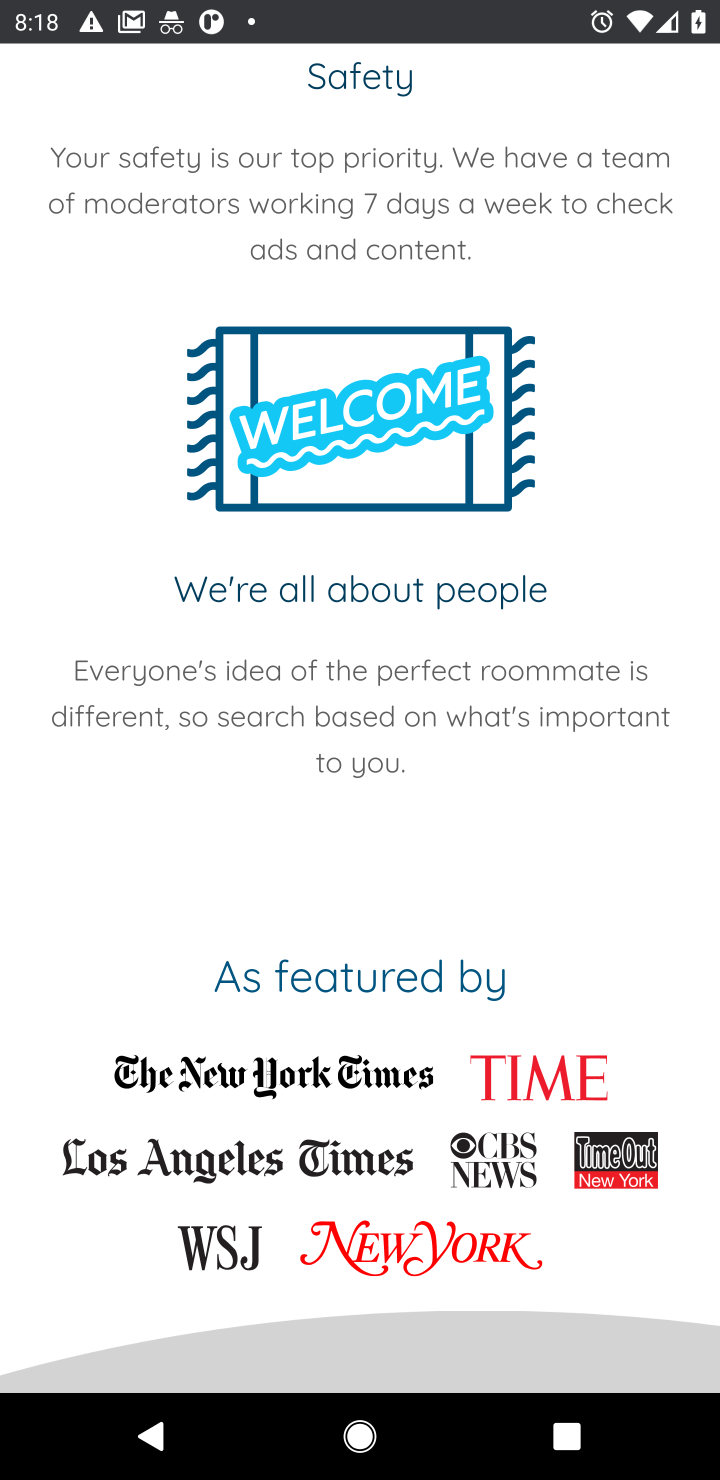
Step 34: press back button
Your task to perform on an android device: How much does a 2 bedroom apartment rent for in Washington DC? Image 35: 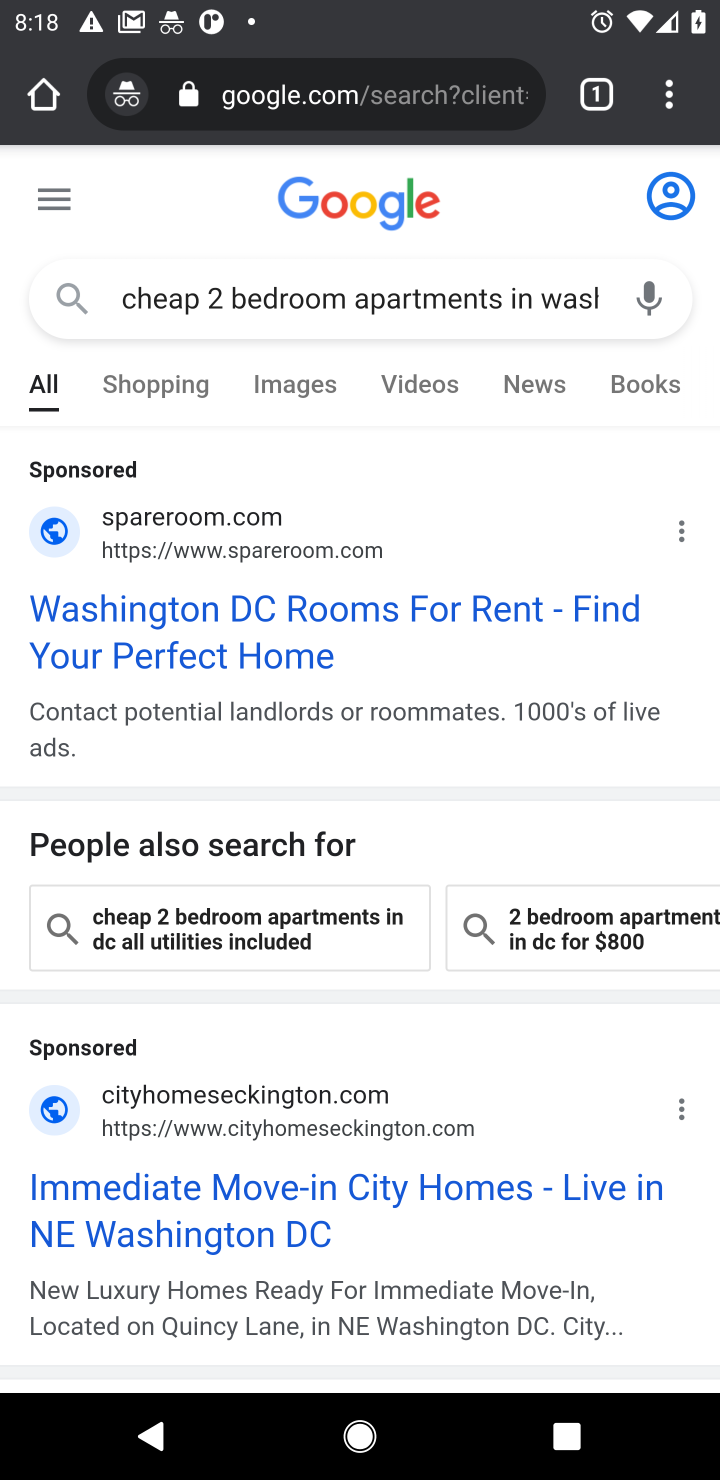
Step 35: drag from (239, 1076) to (271, 629)
Your task to perform on an android device: How much does a 2 bedroom apartment rent for in Washington DC? Image 36: 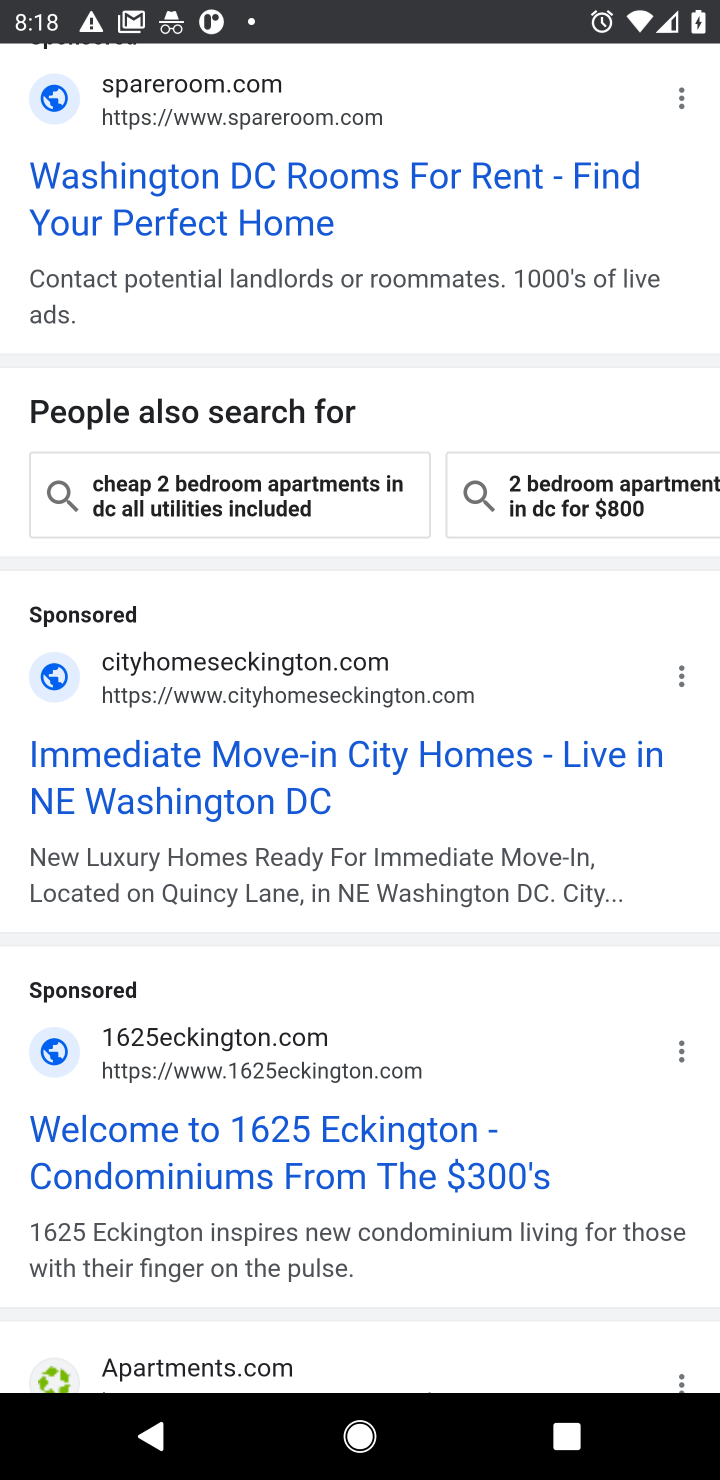
Step 36: click (592, 520)
Your task to perform on an android device: How much does a 2 bedroom apartment rent for in Washington DC? Image 37: 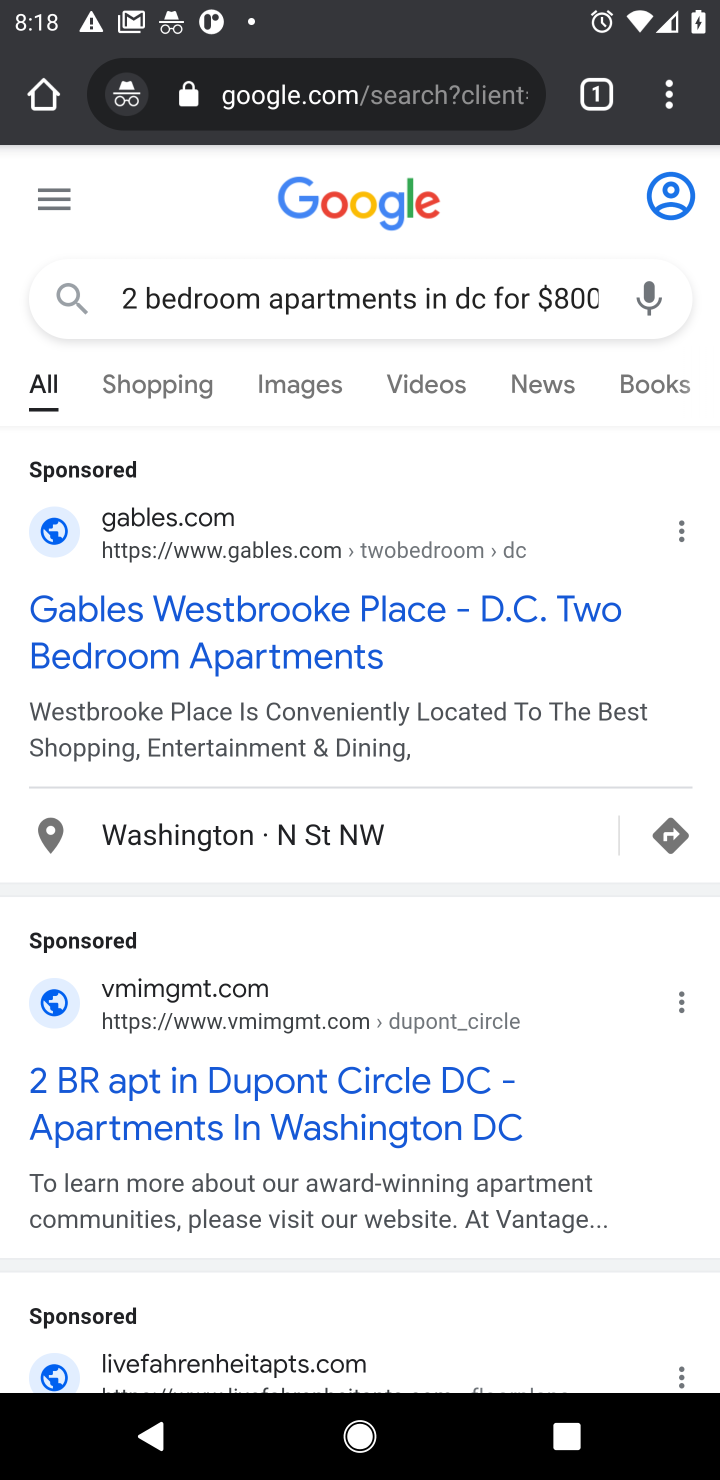
Step 37: drag from (337, 1006) to (343, 540)
Your task to perform on an android device: How much does a 2 bedroom apartment rent for in Washington DC? Image 38: 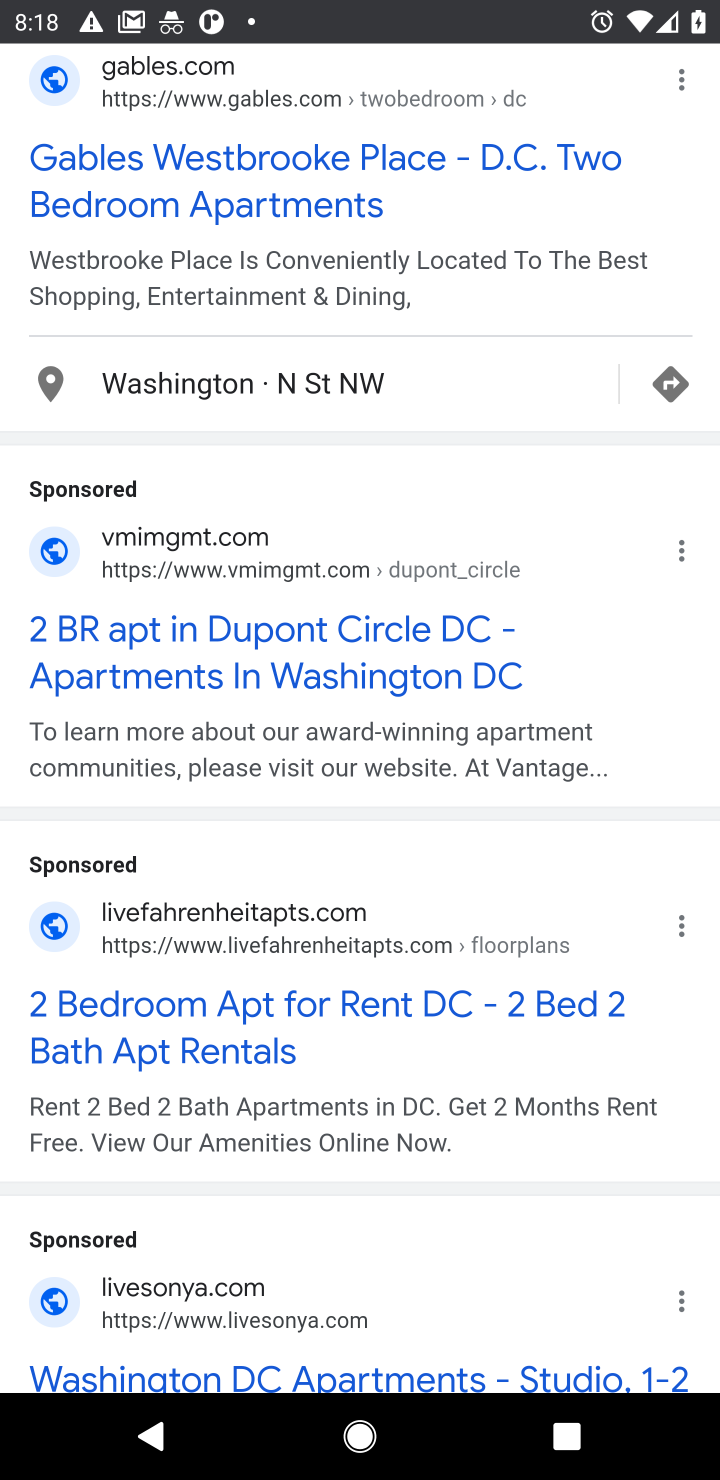
Step 38: click (198, 996)
Your task to perform on an android device: How much does a 2 bedroom apartment rent for in Washington DC? Image 39: 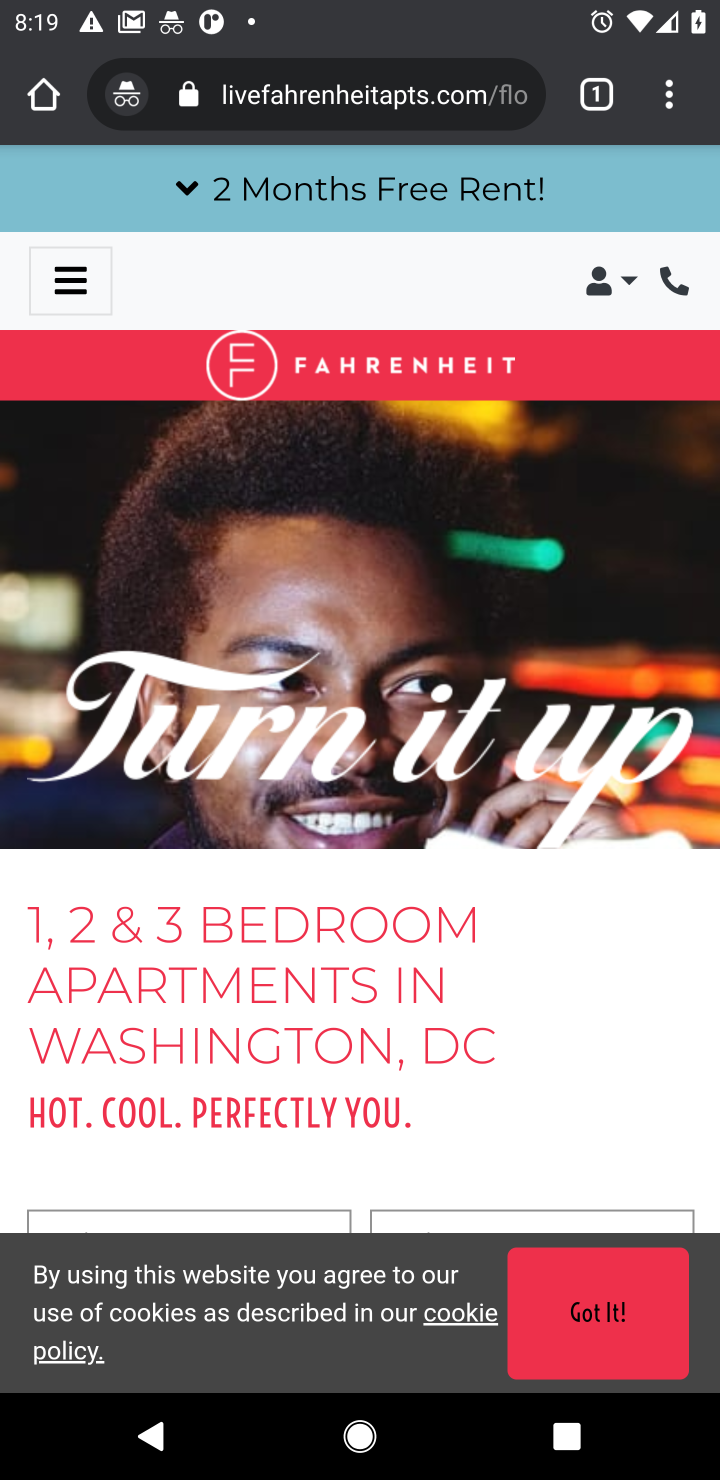
Step 39: task complete